Your task to perform on an android device: What is the capital of China? Image 0: 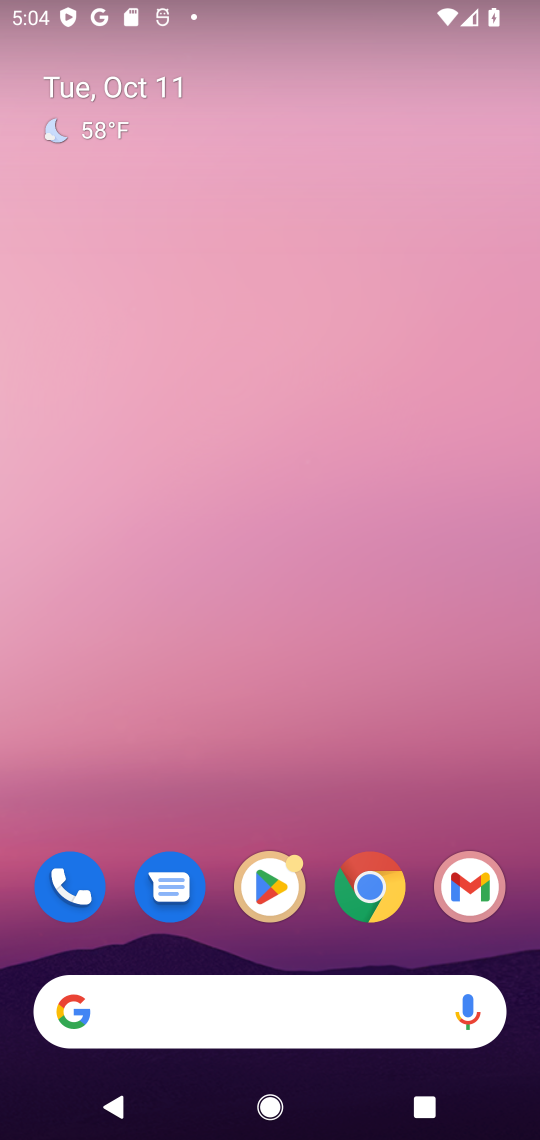
Step 0: click (287, 992)
Your task to perform on an android device: What is the capital of China? Image 1: 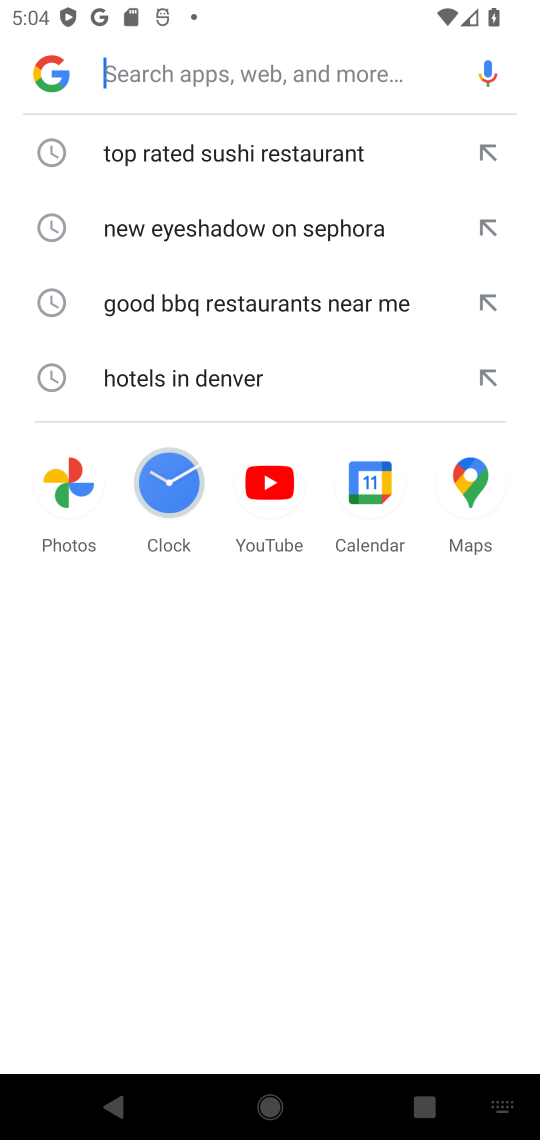
Step 1: type "capital of China"
Your task to perform on an android device: What is the capital of China? Image 2: 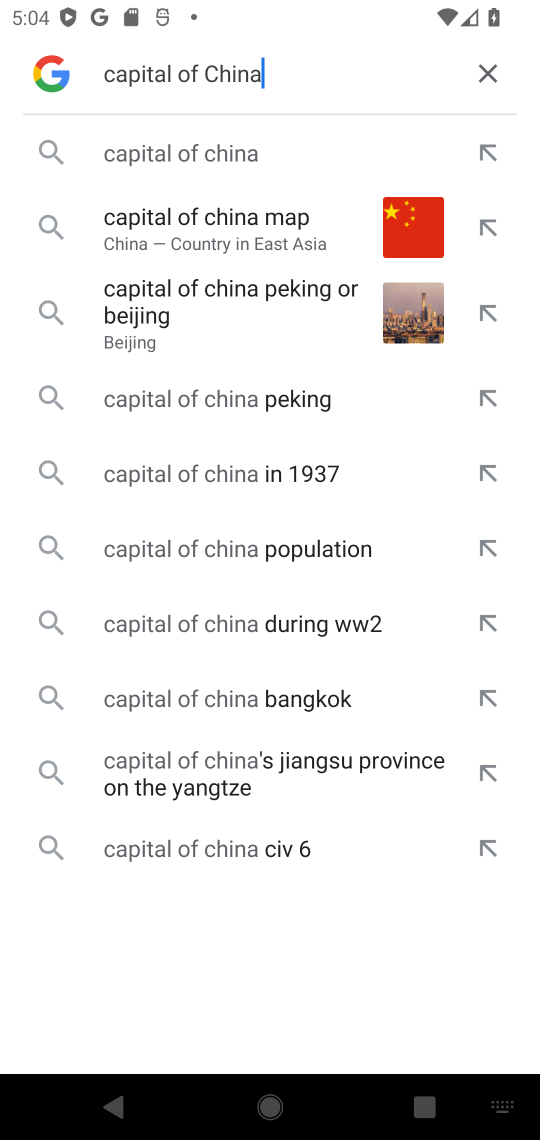
Step 2: click (214, 160)
Your task to perform on an android device: What is the capital of China? Image 3: 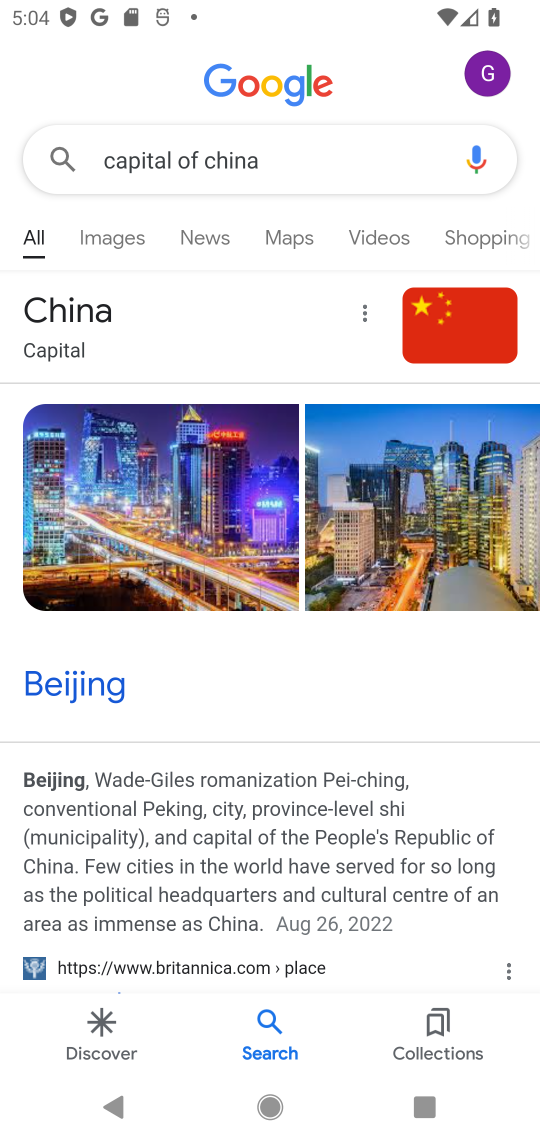
Step 3: click (261, 710)
Your task to perform on an android device: What is the capital of China? Image 4: 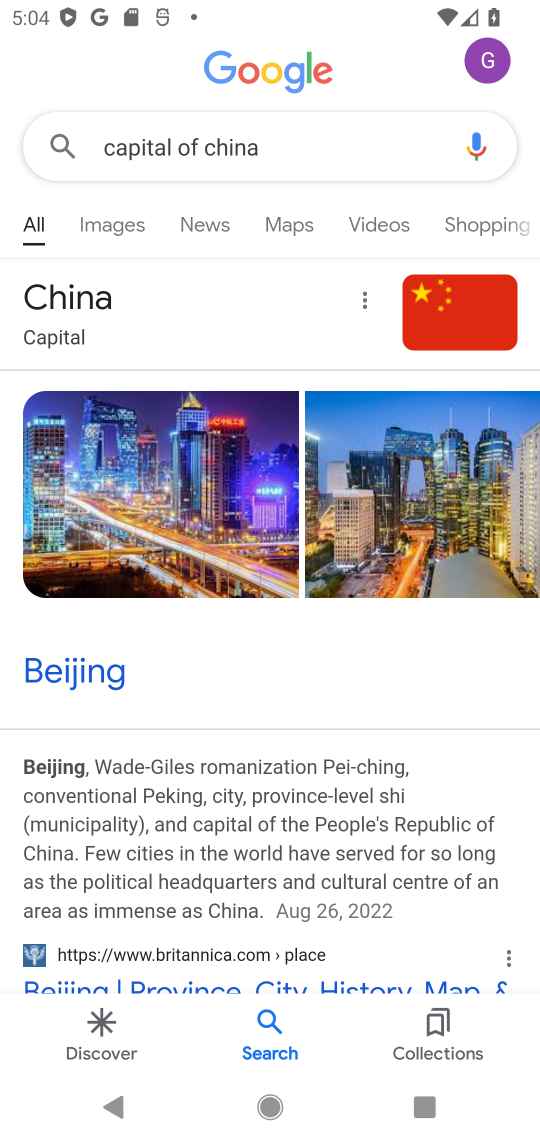
Step 4: drag from (176, 658) to (297, 293)
Your task to perform on an android device: What is the capital of China? Image 5: 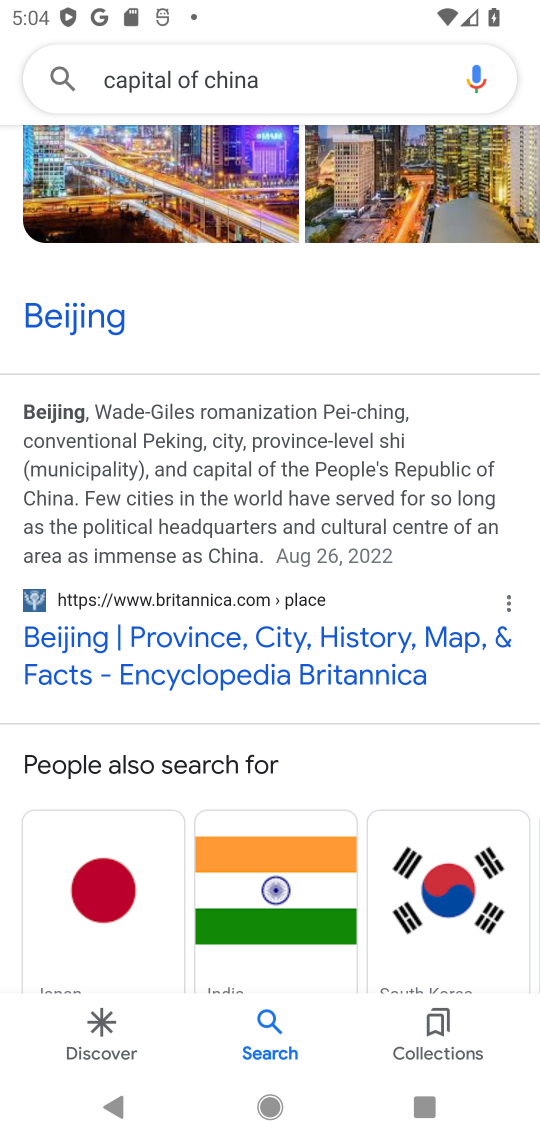
Step 5: drag from (414, 578) to (444, 338)
Your task to perform on an android device: What is the capital of China? Image 6: 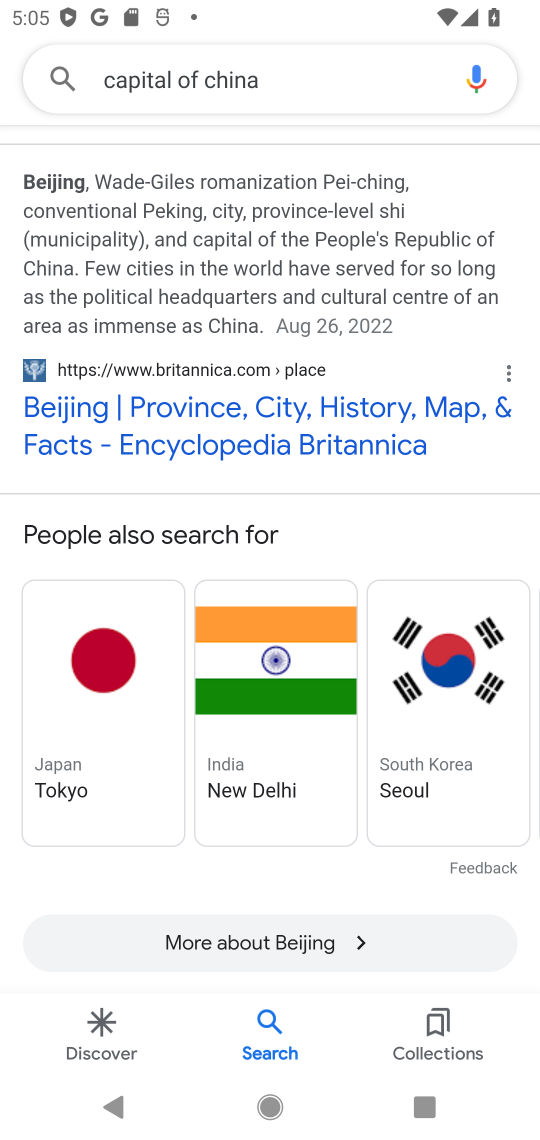
Step 6: drag from (365, 855) to (363, 709)
Your task to perform on an android device: What is the capital of China? Image 7: 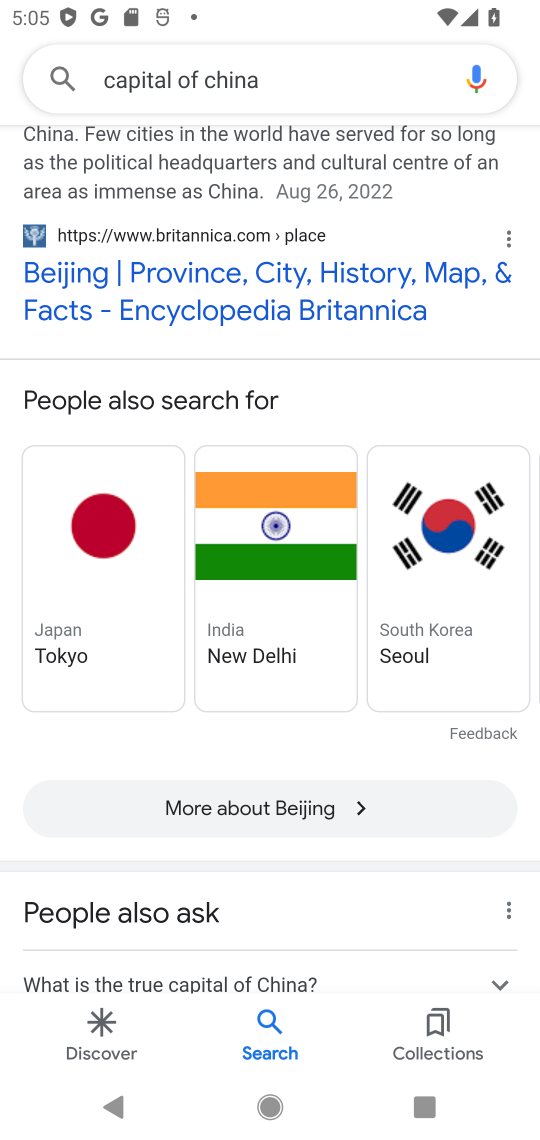
Step 7: drag from (412, 921) to (382, 446)
Your task to perform on an android device: What is the capital of China? Image 8: 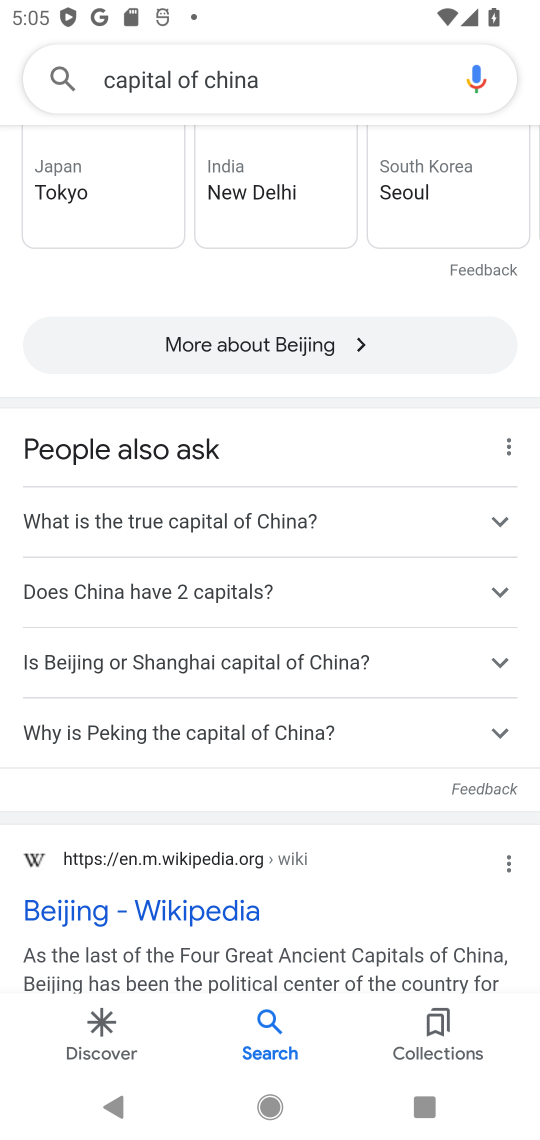
Step 8: click (353, 871)
Your task to perform on an android device: What is the capital of China? Image 9: 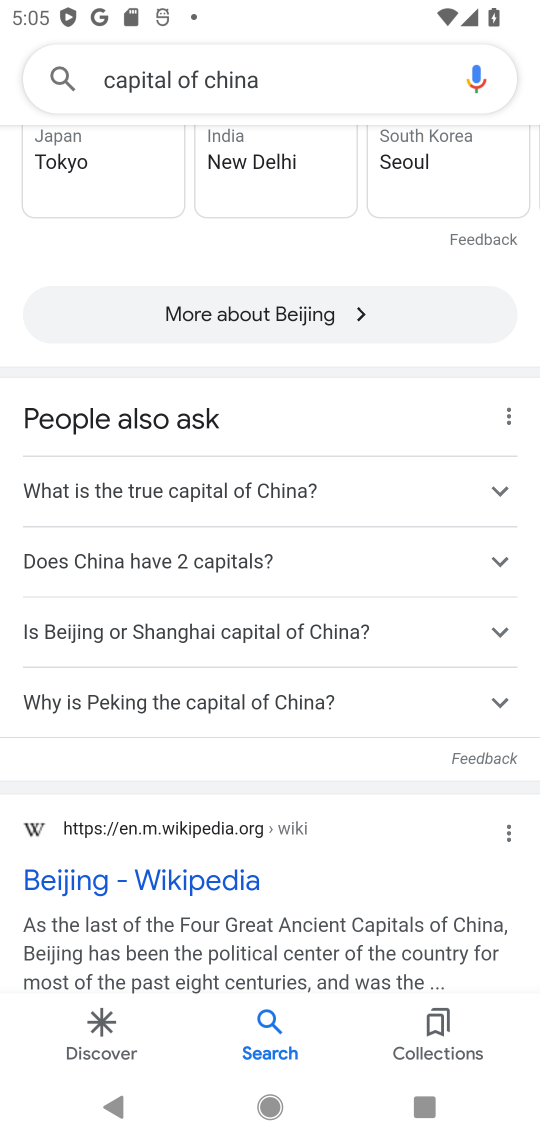
Step 9: click (502, 488)
Your task to perform on an android device: What is the capital of China? Image 10: 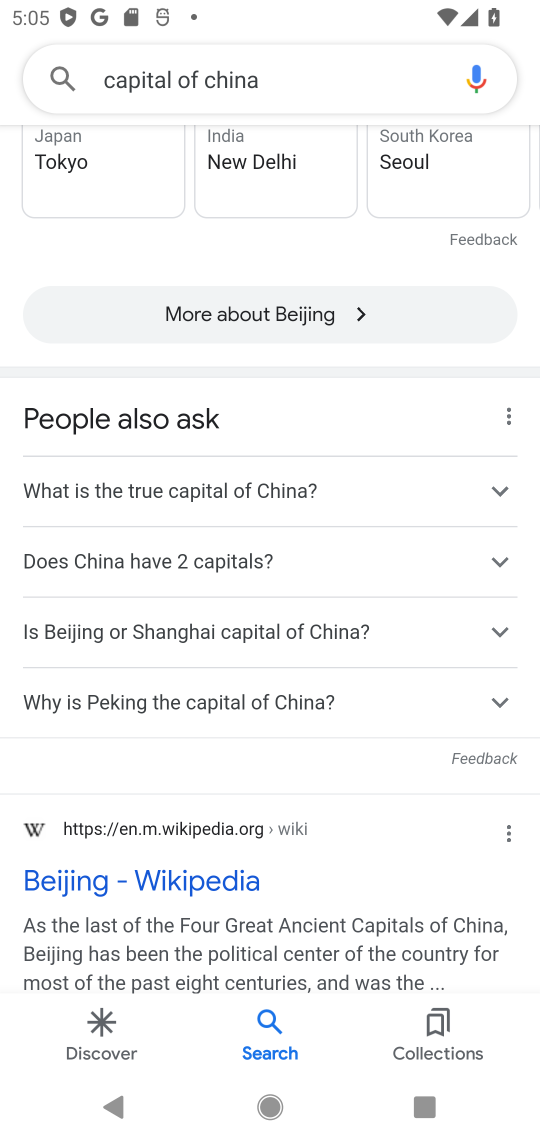
Step 10: click (502, 488)
Your task to perform on an android device: What is the capital of China? Image 11: 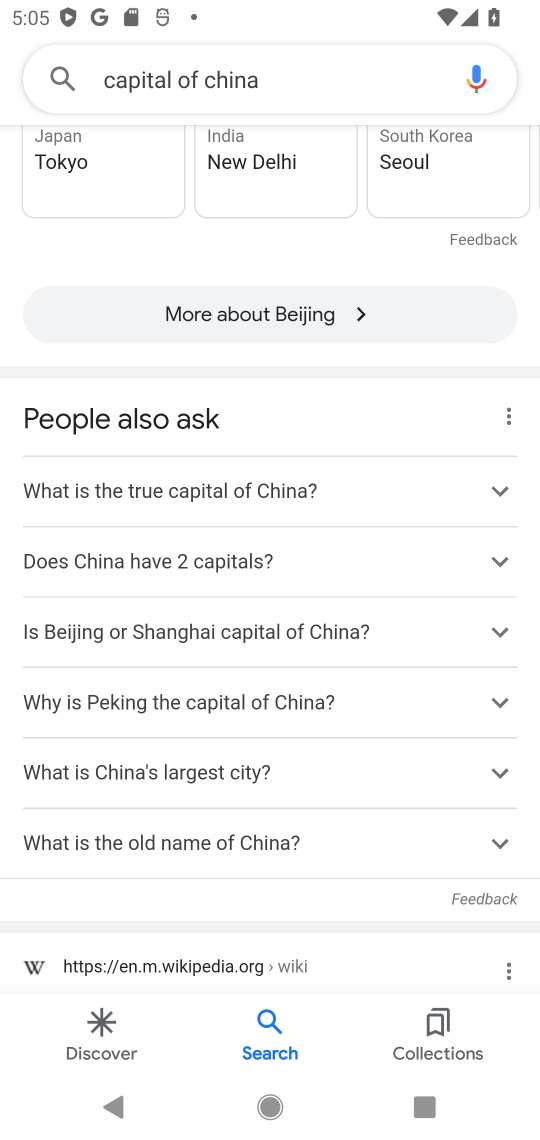
Step 11: click (502, 488)
Your task to perform on an android device: What is the capital of China? Image 12: 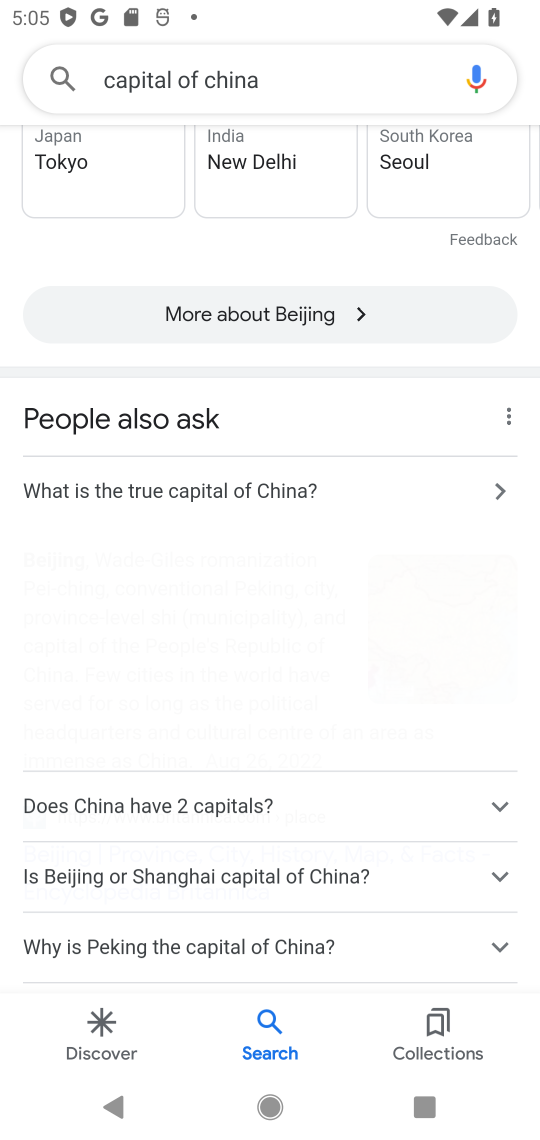
Step 12: click (501, 490)
Your task to perform on an android device: What is the capital of China? Image 13: 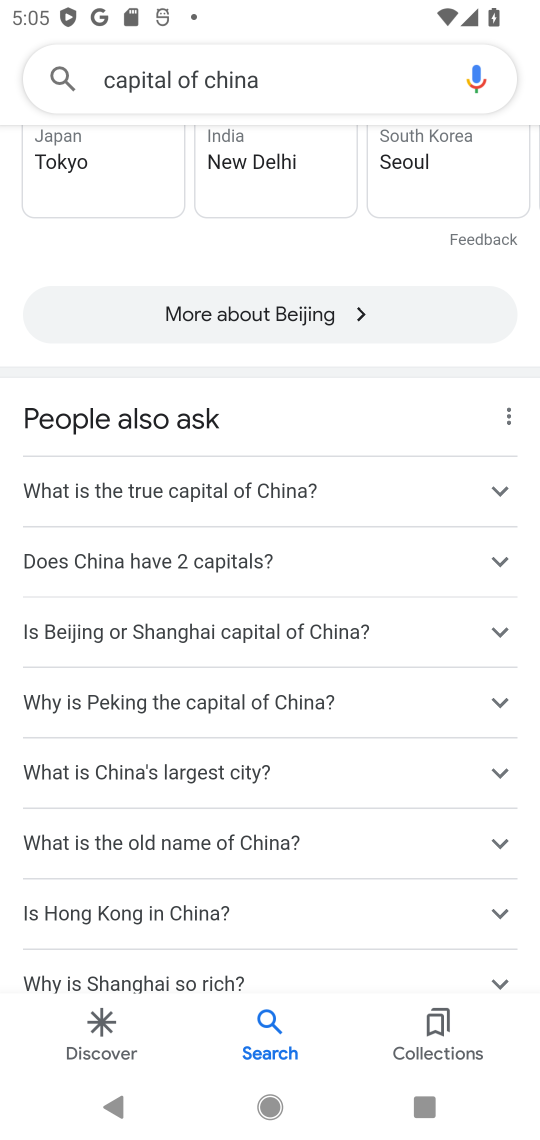
Step 13: click (497, 489)
Your task to perform on an android device: What is the capital of China? Image 14: 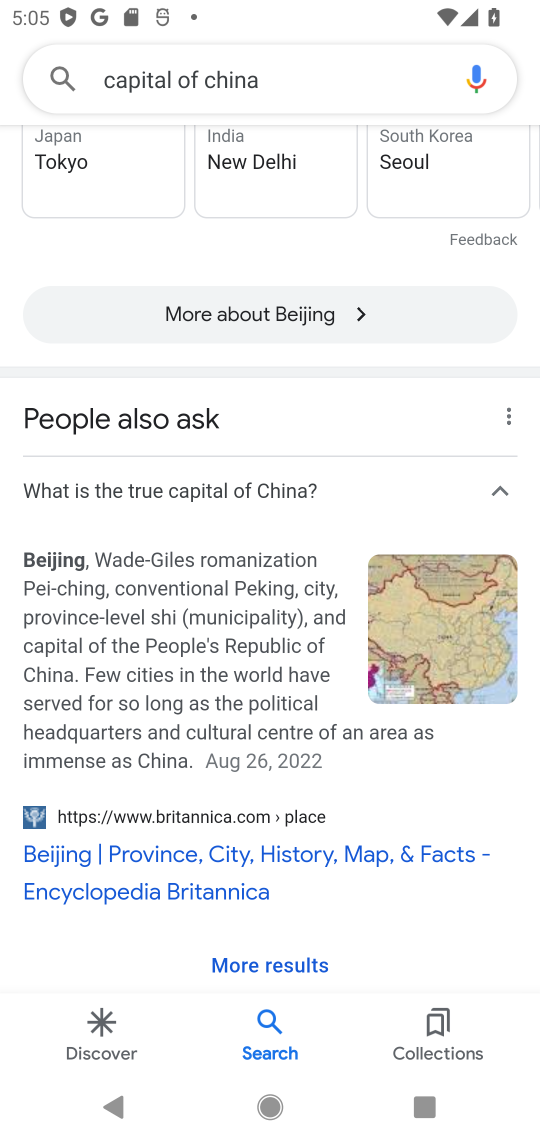
Step 14: click (497, 489)
Your task to perform on an android device: What is the capital of China? Image 15: 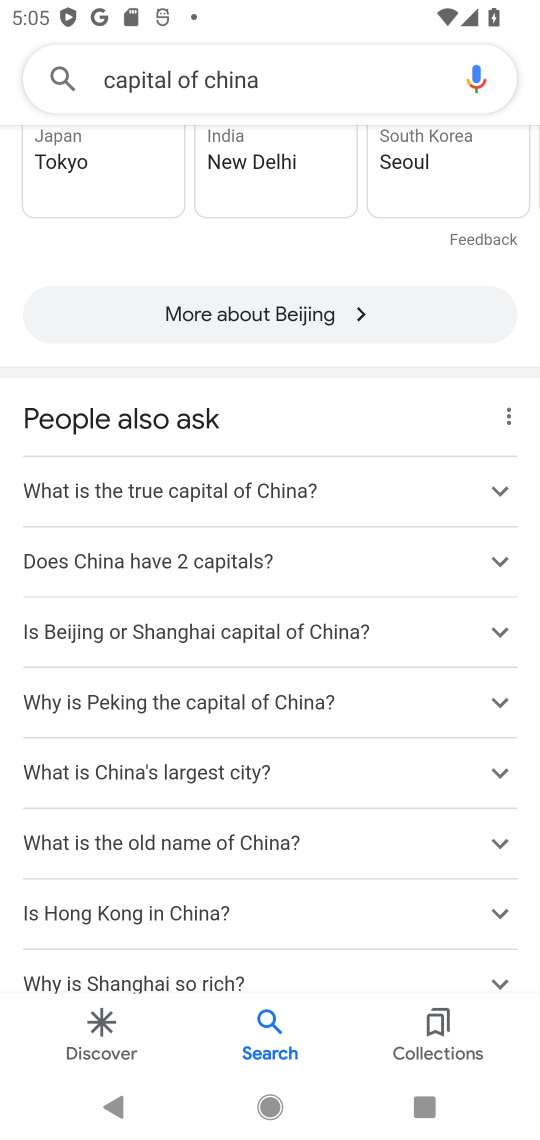
Step 15: click (497, 489)
Your task to perform on an android device: What is the capital of China? Image 16: 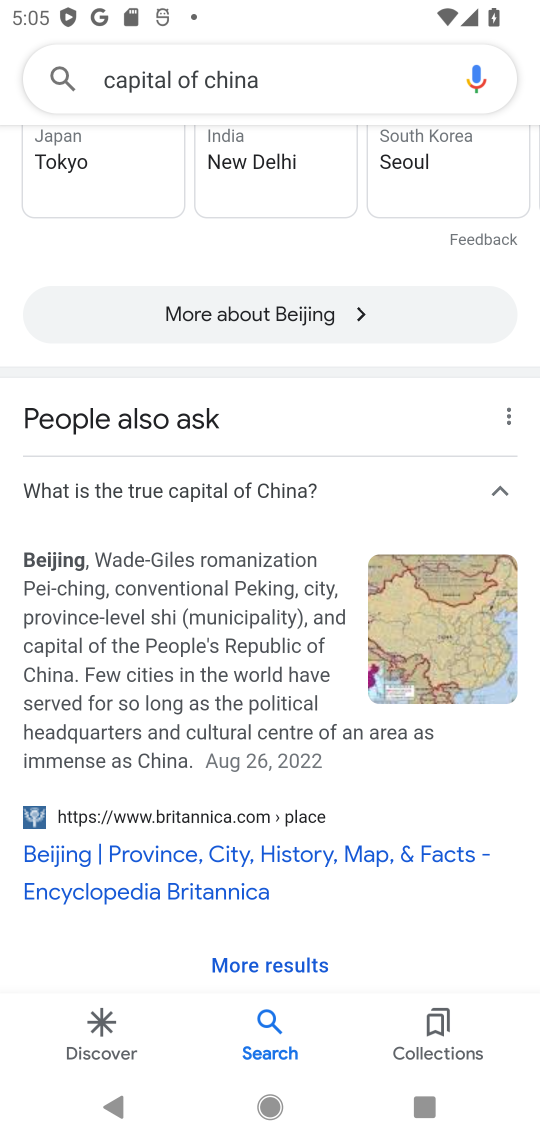
Step 16: click (497, 489)
Your task to perform on an android device: What is the capital of China? Image 17: 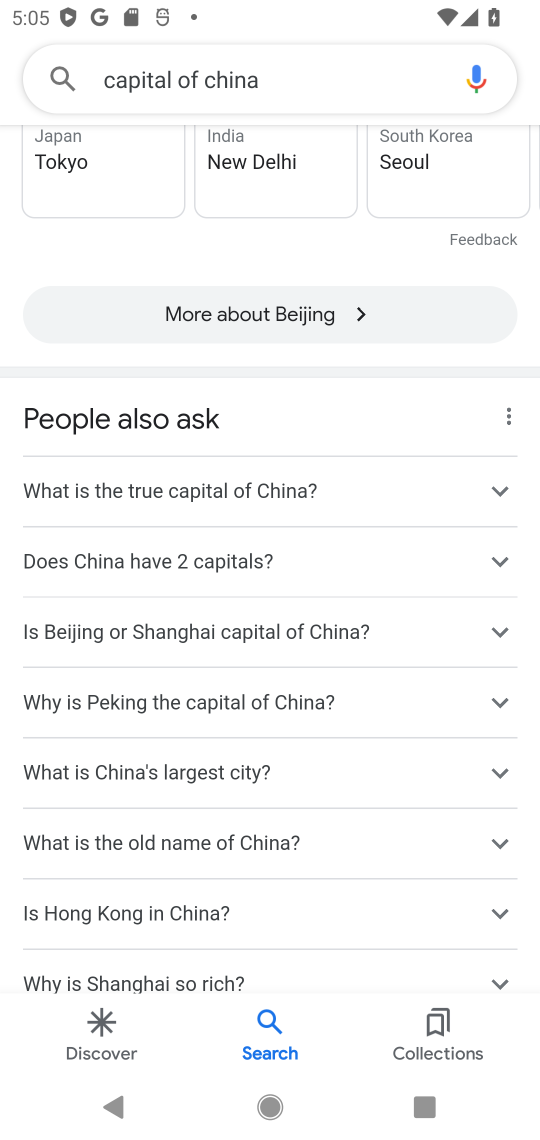
Step 17: click (497, 489)
Your task to perform on an android device: What is the capital of China? Image 18: 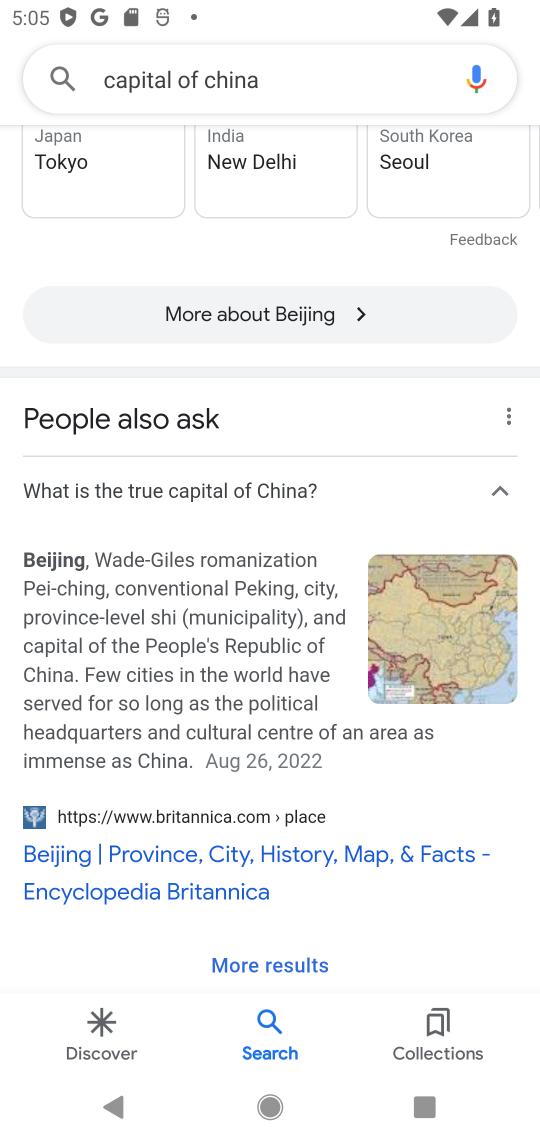
Step 18: click (497, 489)
Your task to perform on an android device: What is the capital of China? Image 19: 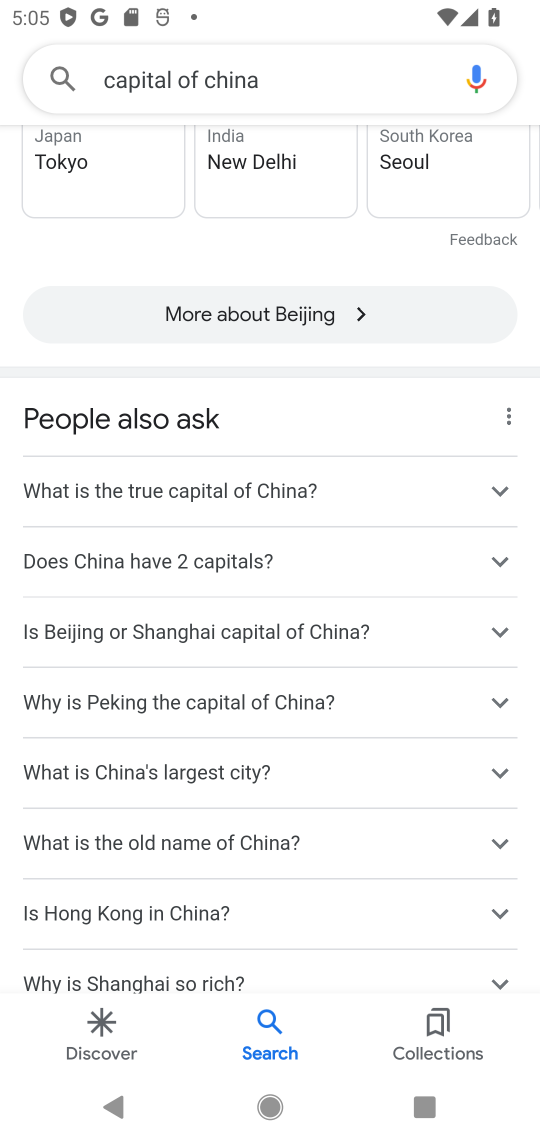
Step 19: click (497, 489)
Your task to perform on an android device: What is the capital of China? Image 20: 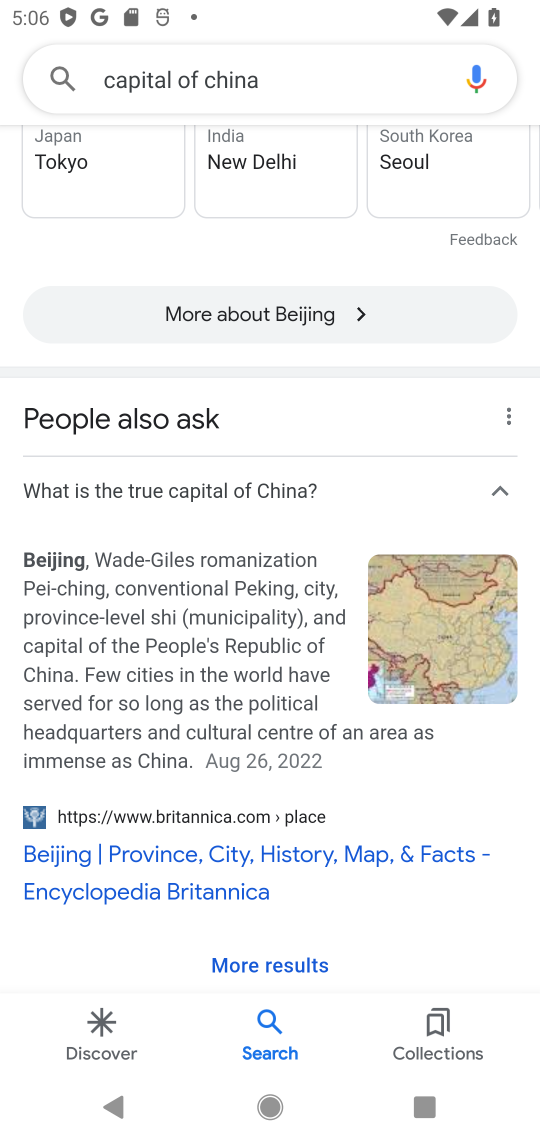
Step 20: click (497, 489)
Your task to perform on an android device: What is the capital of China? Image 21: 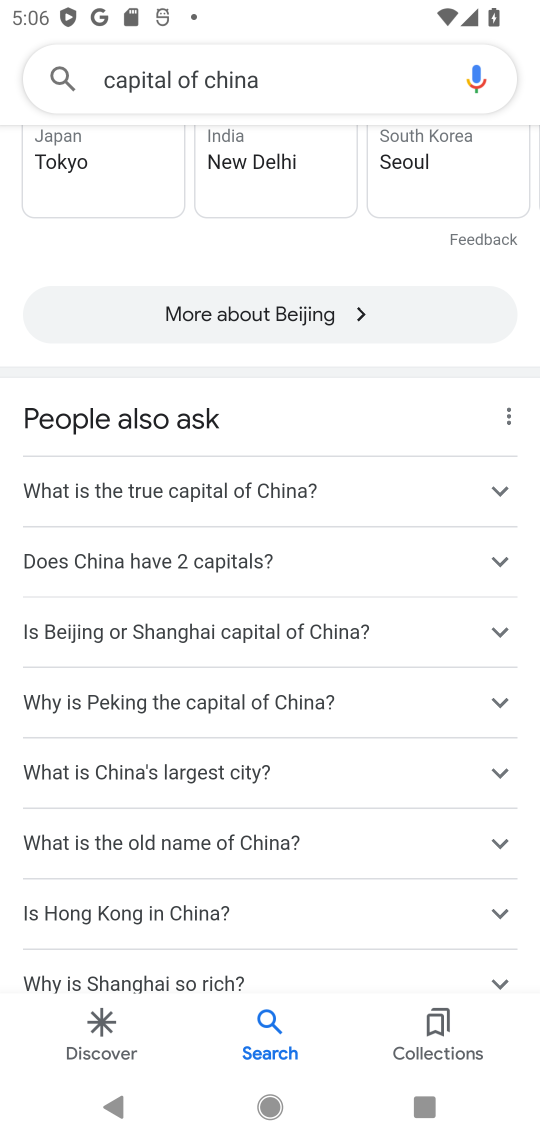
Step 21: click (497, 489)
Your task to perform on an android device: What is the capital of China? Image 22: 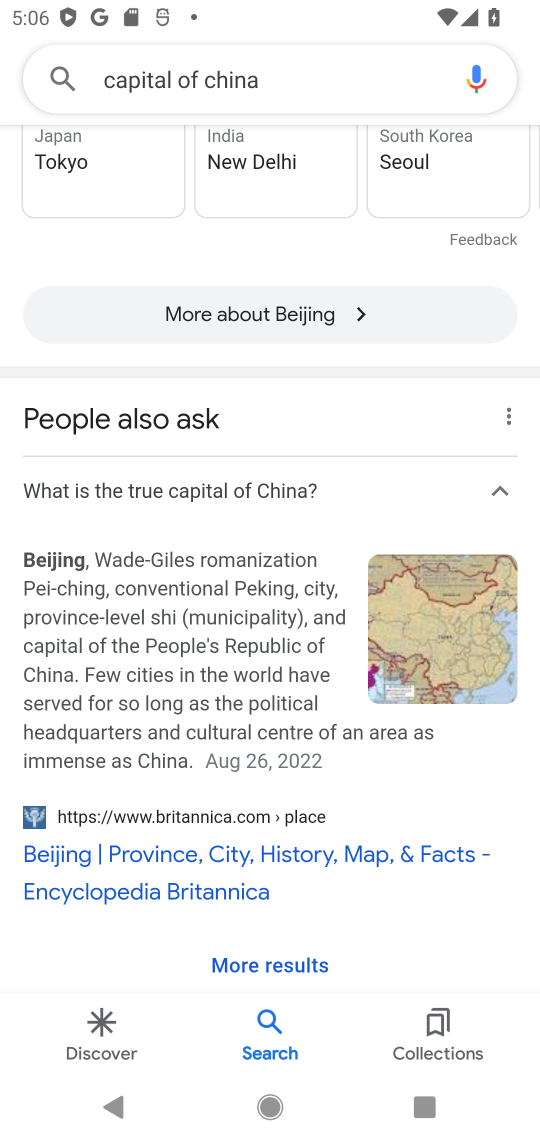
Step 22: click (497, 489)
Your task to perform on an android device: What is the capital of China? Image 23: 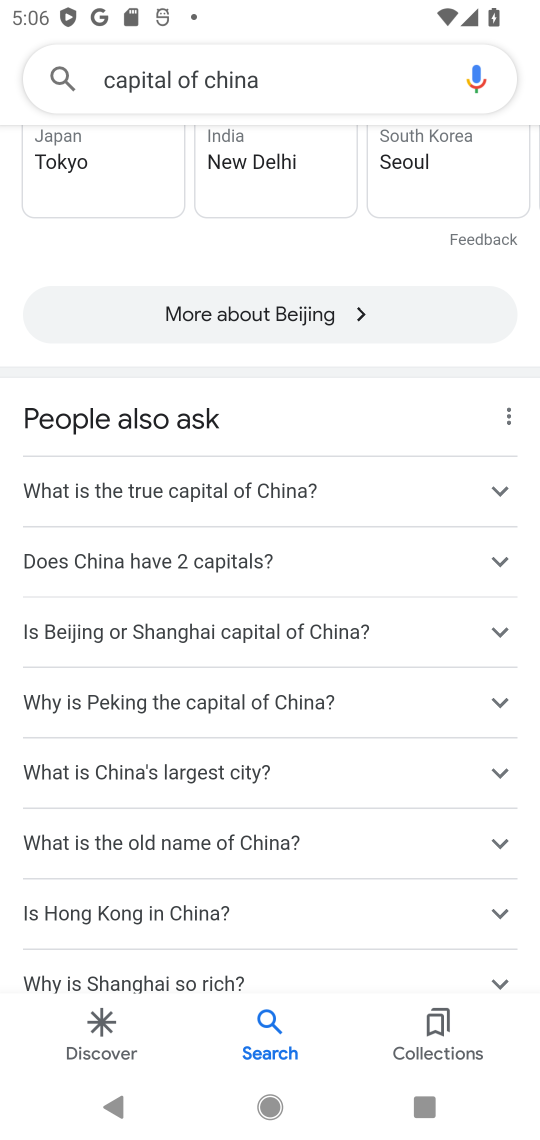
Step 23: click (497, 489)
Your task to perform on an android device: What is the capital of China? Image 24: 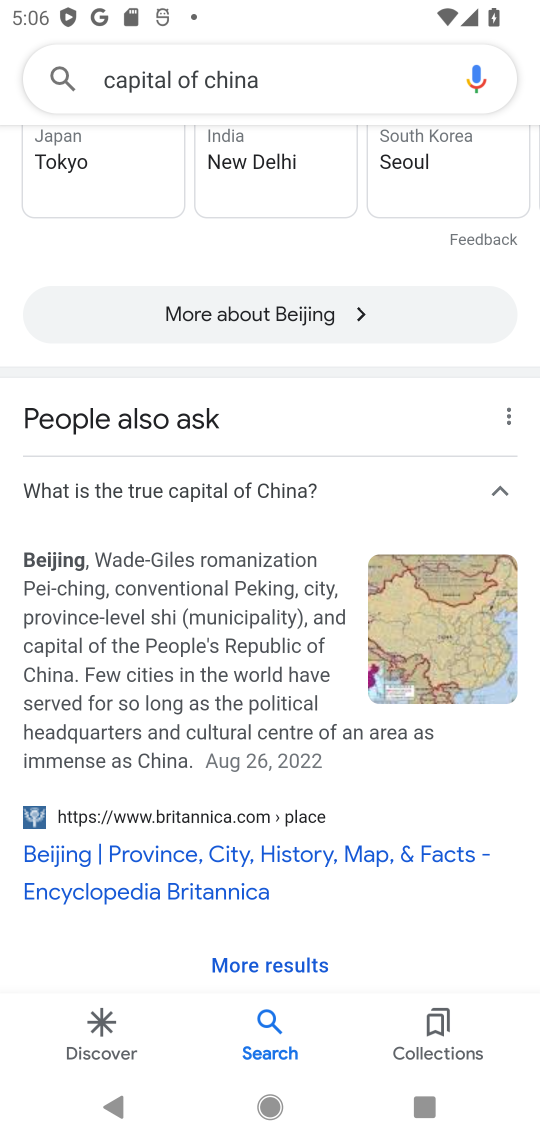
Step 24: click (497, 489)
Your task to perform on an android device: What is the capital of China? Image 25: 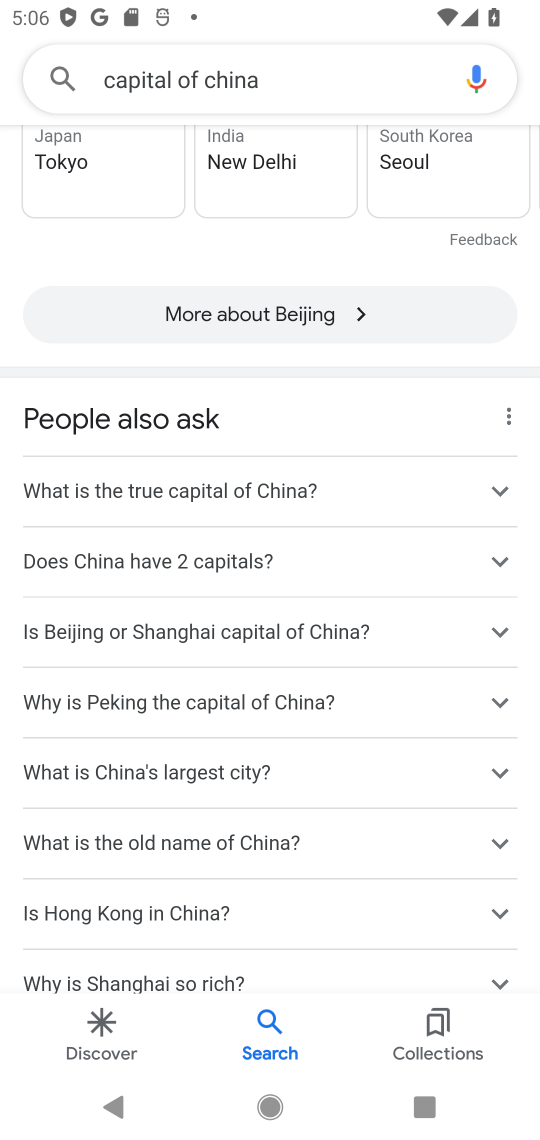
Step 25: click (497, 489)
Your task to perform on an android device: What is the capital of China? Image 26: 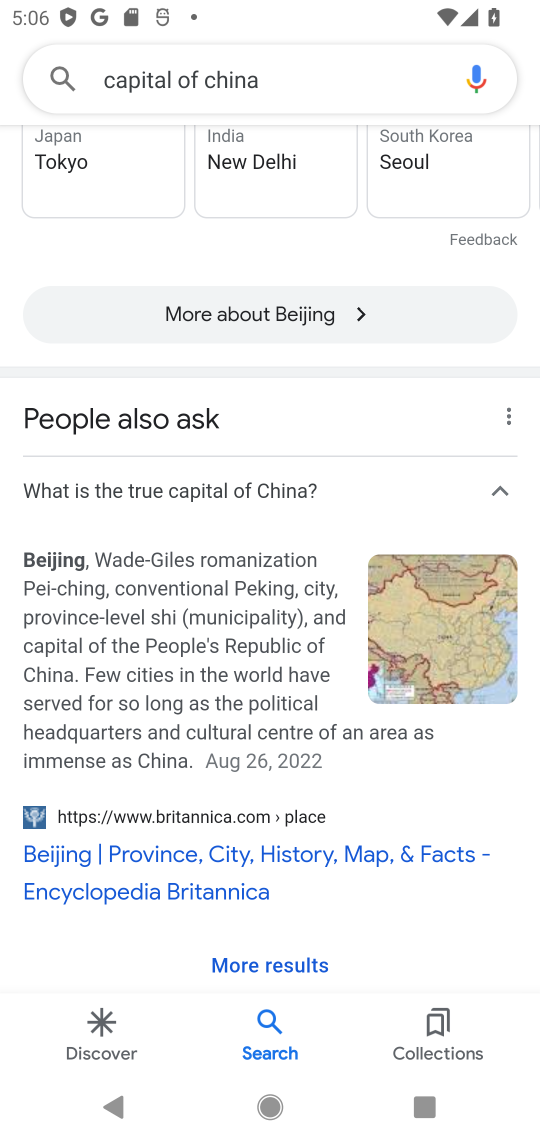
Step 26: click (497, 489)
Your task to perform on an android device: What is the capital of China? Image 27: 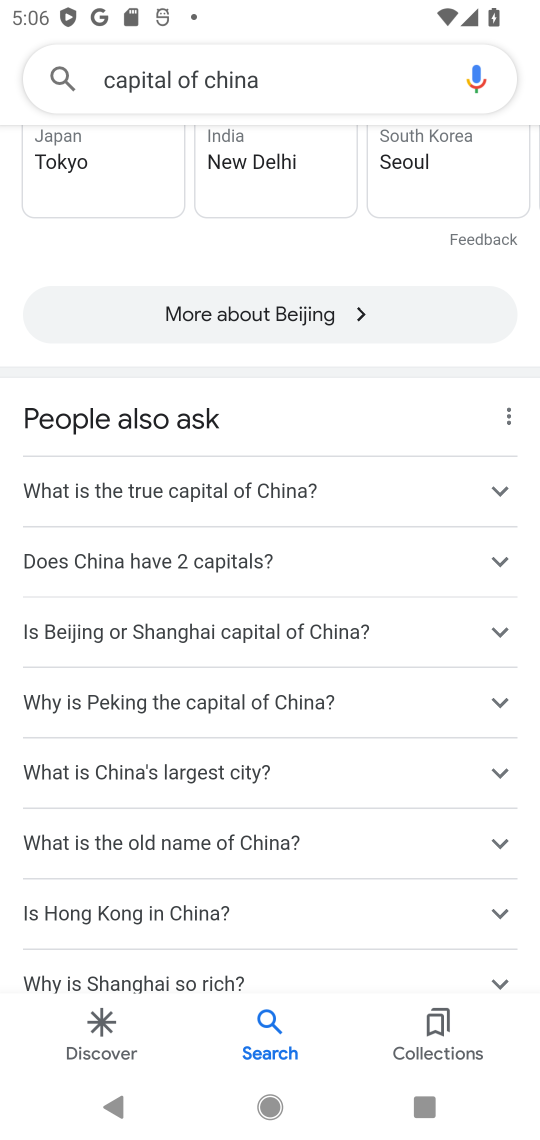
Step 27: click (497, 489)
Your task to perform on an android device: What is the capital of China? Image 28: 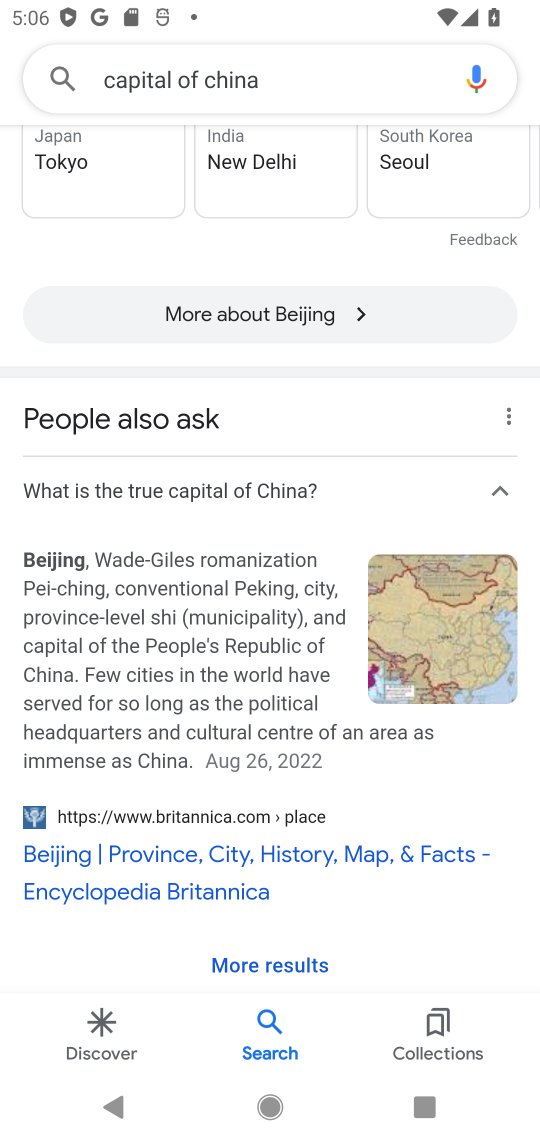
Step 28: click (497, 489)
Your task to perform on an android device: What is the capital of China? Image 29: 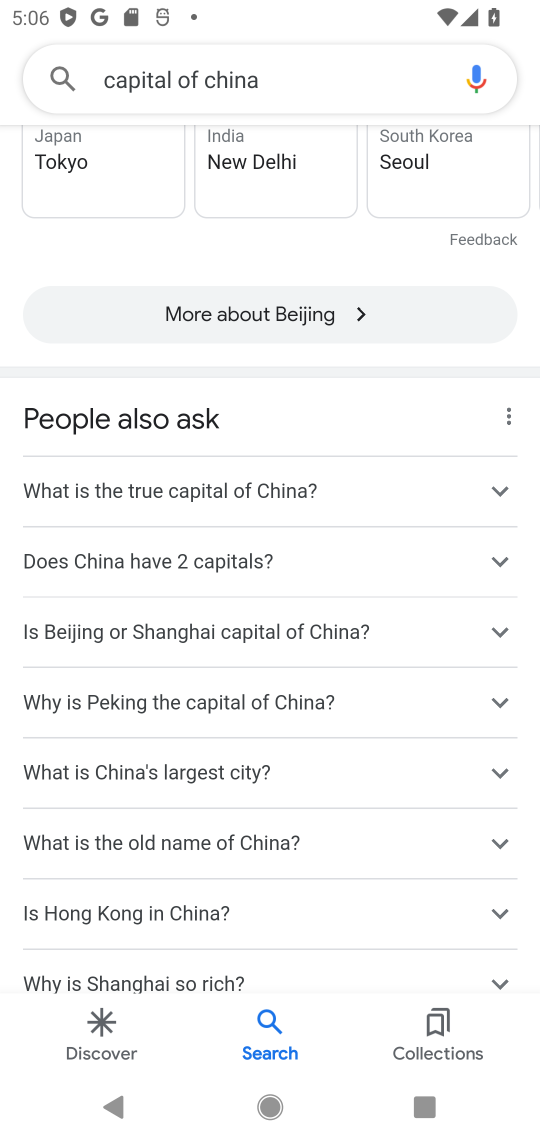
Step 29: click (497, 489)
Your task to perform on an android device: What is the capital of China? Image 30: 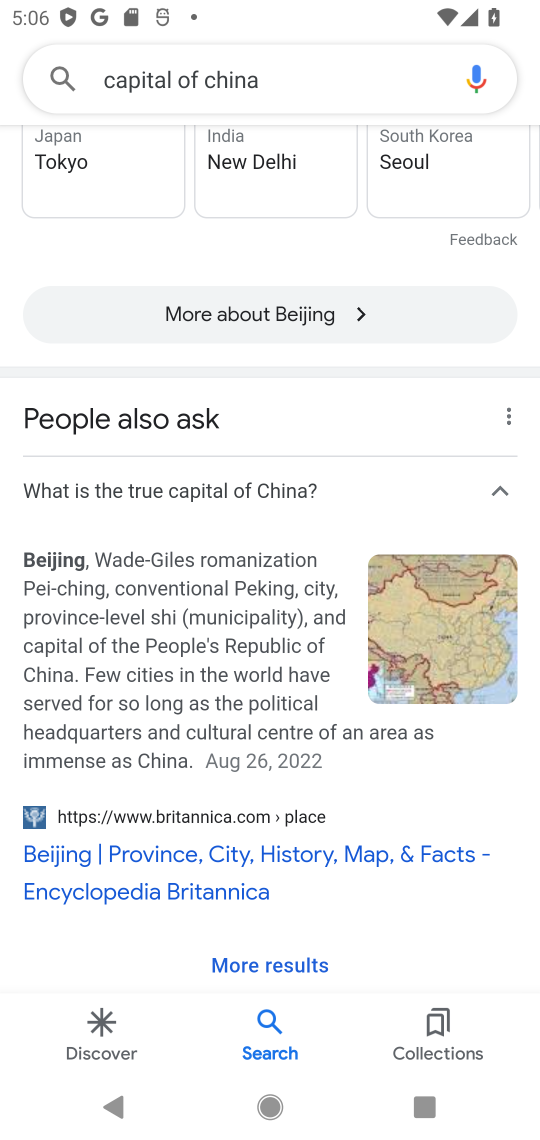
Step 30: click (497, 489)
Your task to perform on an android device: What is the capital of China? Image 31: 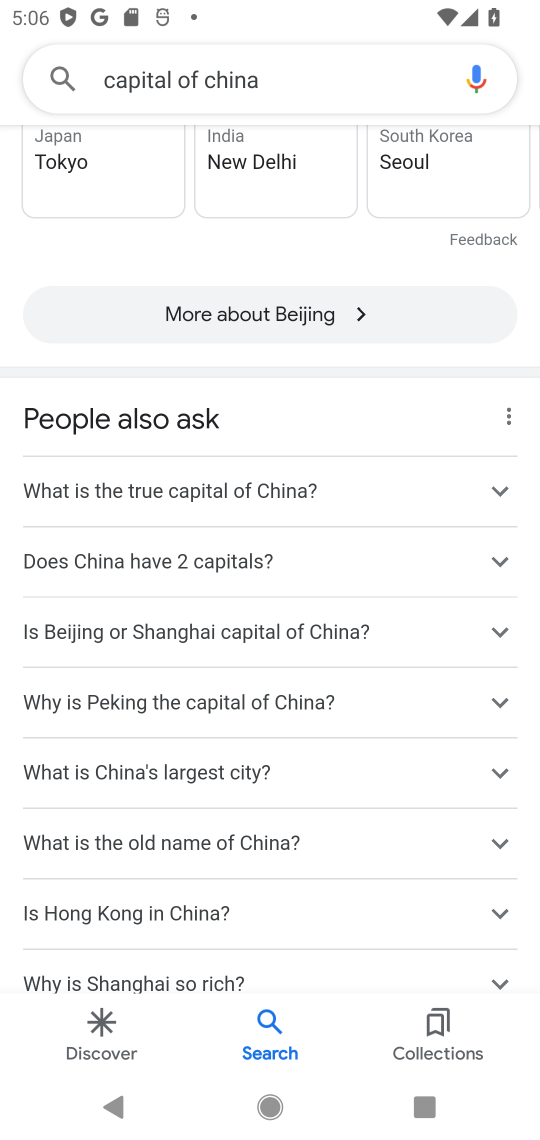
Step 31: click (497, 489)
Your task to perform on an android device: What is the capital of China? Image 32: 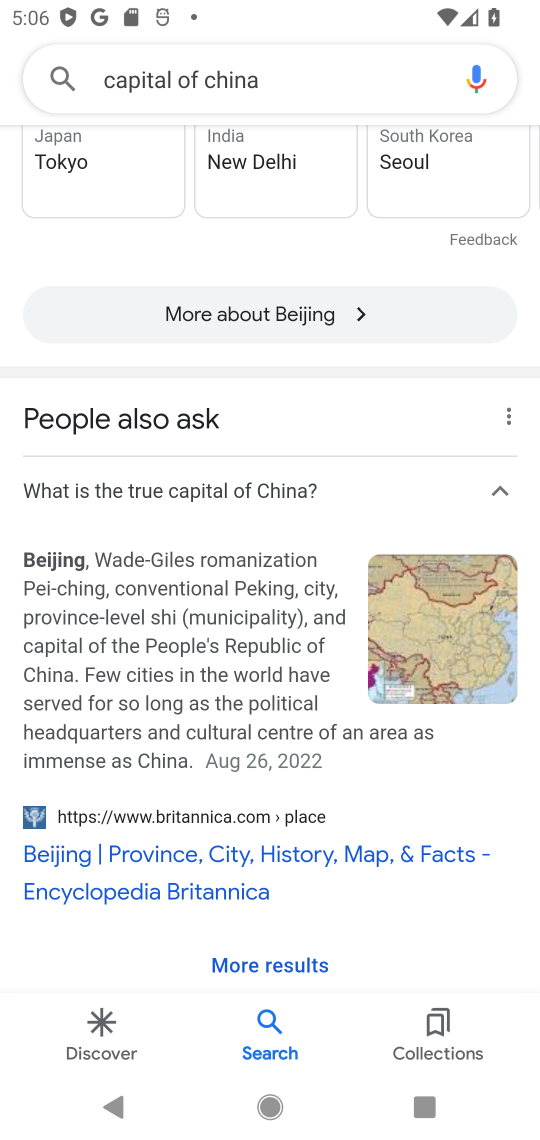
Step 32: click (497, 489)
Your task to perform on an android device: What is the capital of China? Image 33: 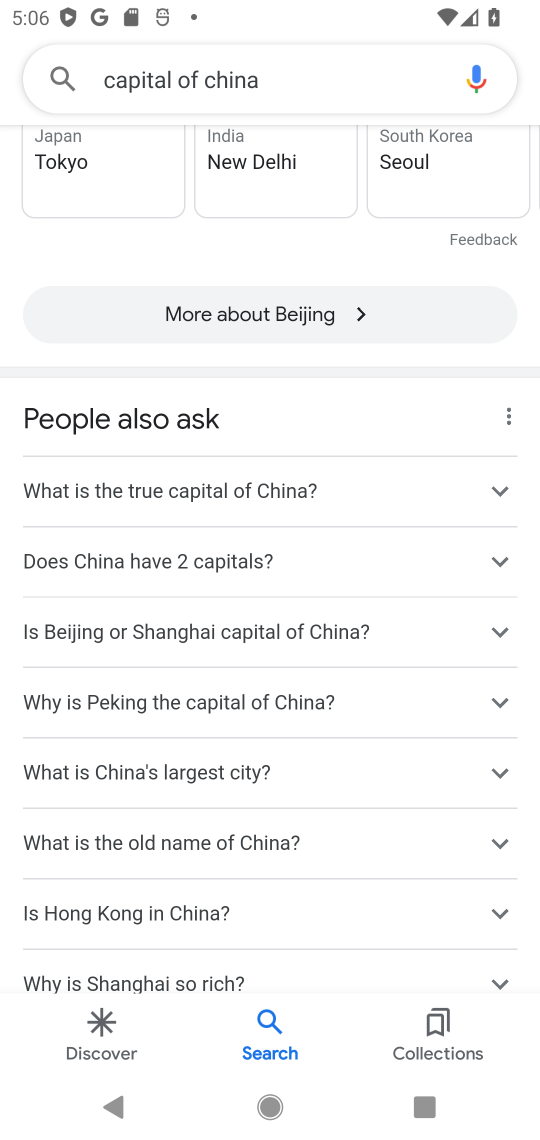
Step 33: click (497, 489)
Your task to perform on an android device: What is the capital of China? Image 34: 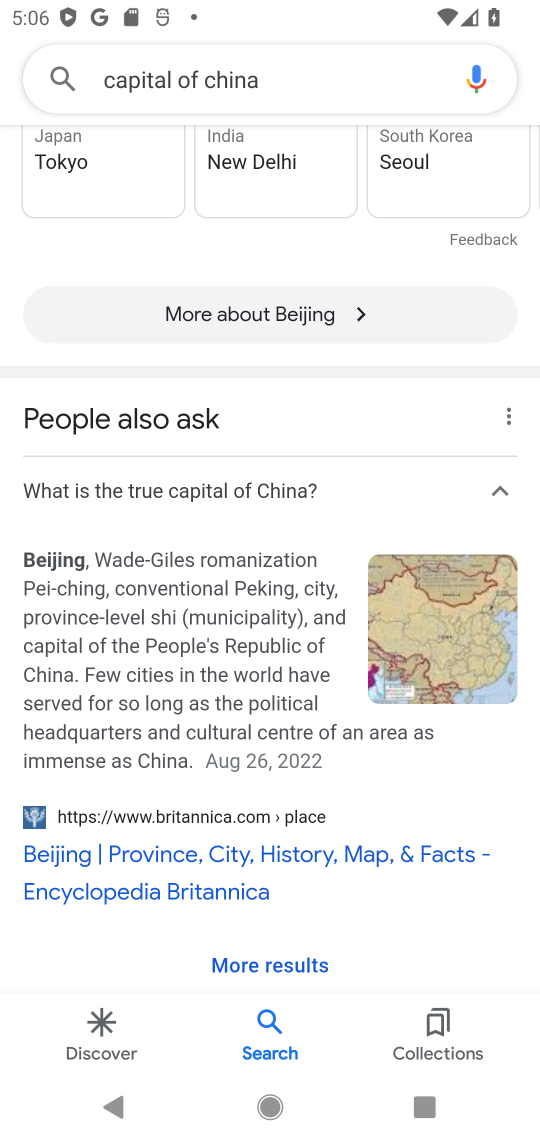
Step 34: click (497, 489)
Your task to perform on an android device: What is the capital of China? Image 35: 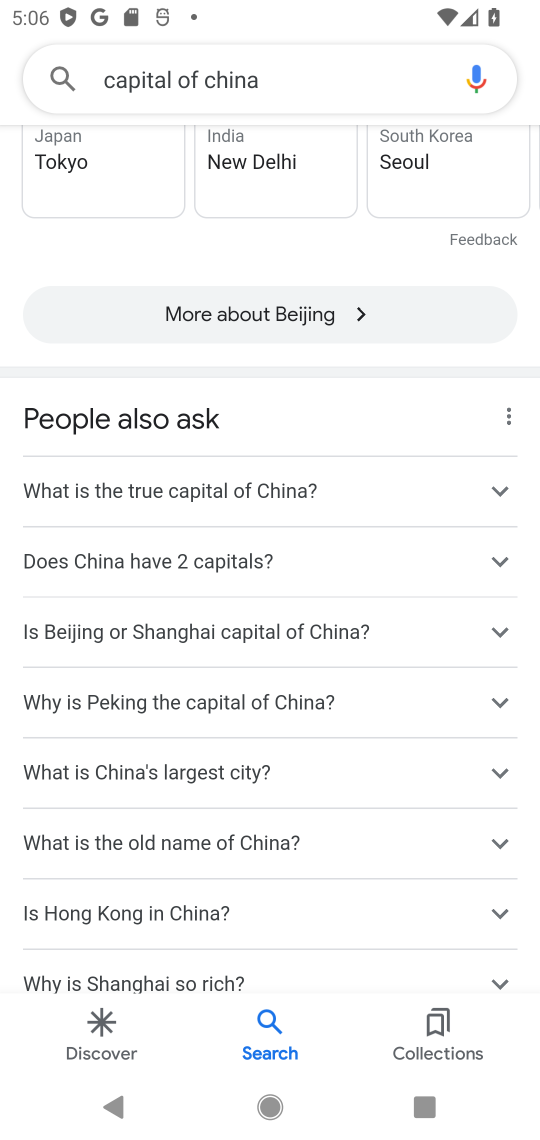
Step 35: click (497, 489)
Your task to perform on an android device: What is the capital of China? Image 36: 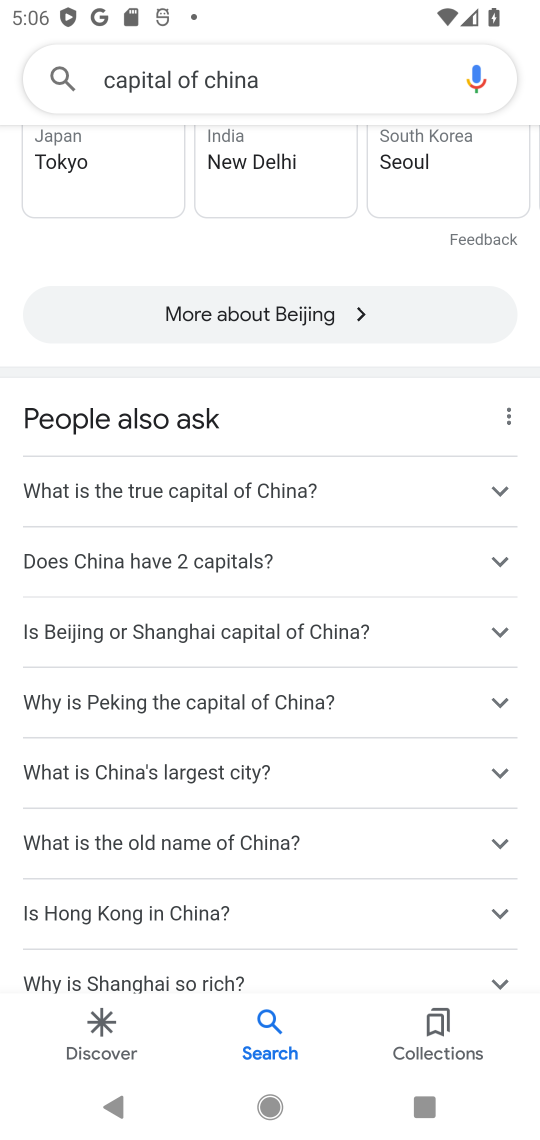
Step 36: click (497, 489)
Your task to perform on an android device: What is the capital of China? Image 37: 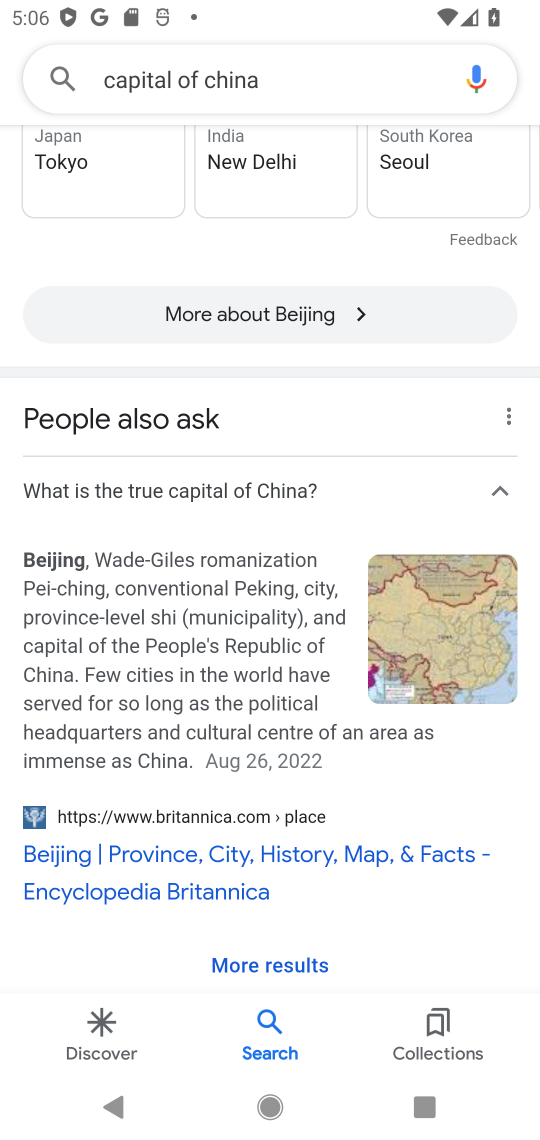
Step 37: click (497, 489)
Your task to perform on an android device: What is the capital of China? Image 38: 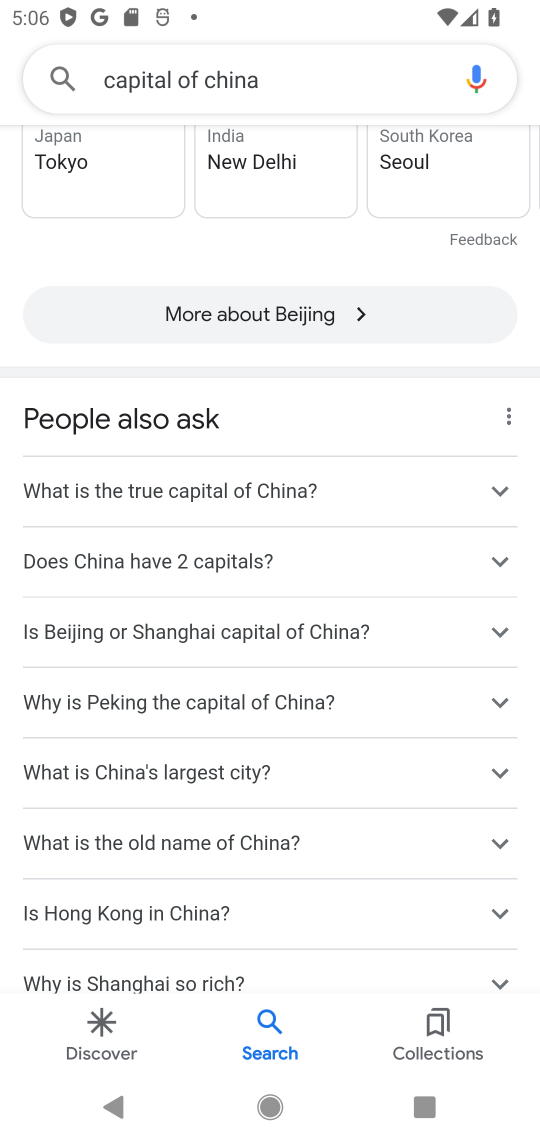
Step 38: click (497, 489)
Your task to perform on an android device: What is the capital of China? Image 39: 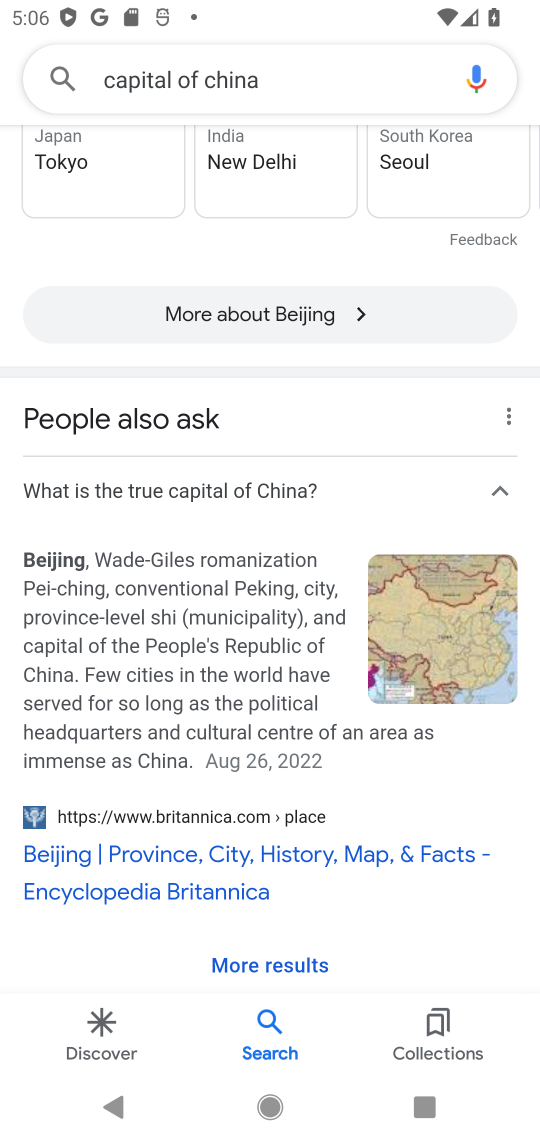
Step 39: click (497, 489)
Your task to perform on an android device: What is the capital of China? Image 40: 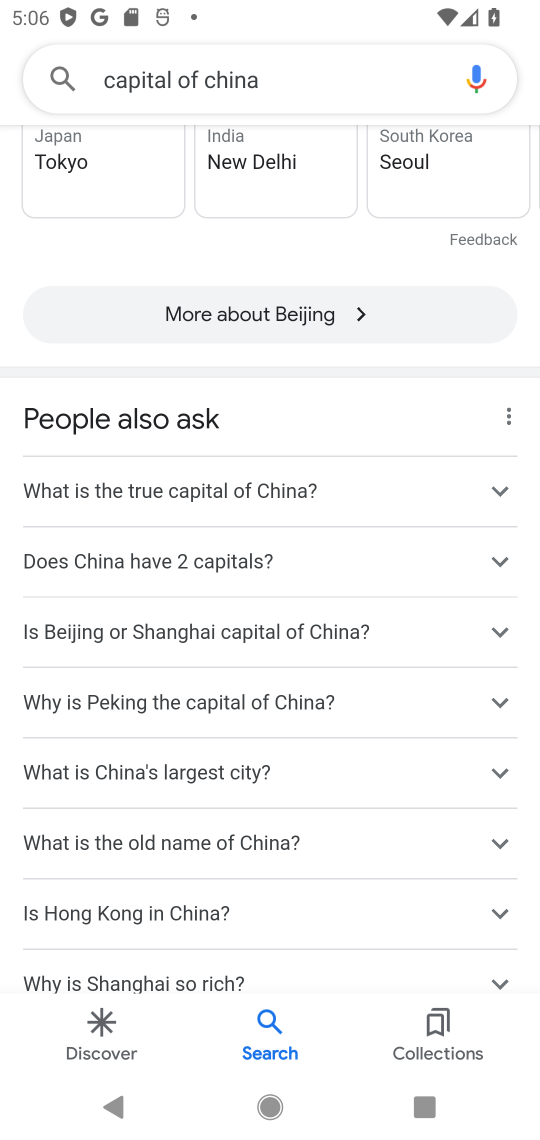
Step 40: click (497, 489)
Your task to perform on an android device: What is the capital of China? Image 41: 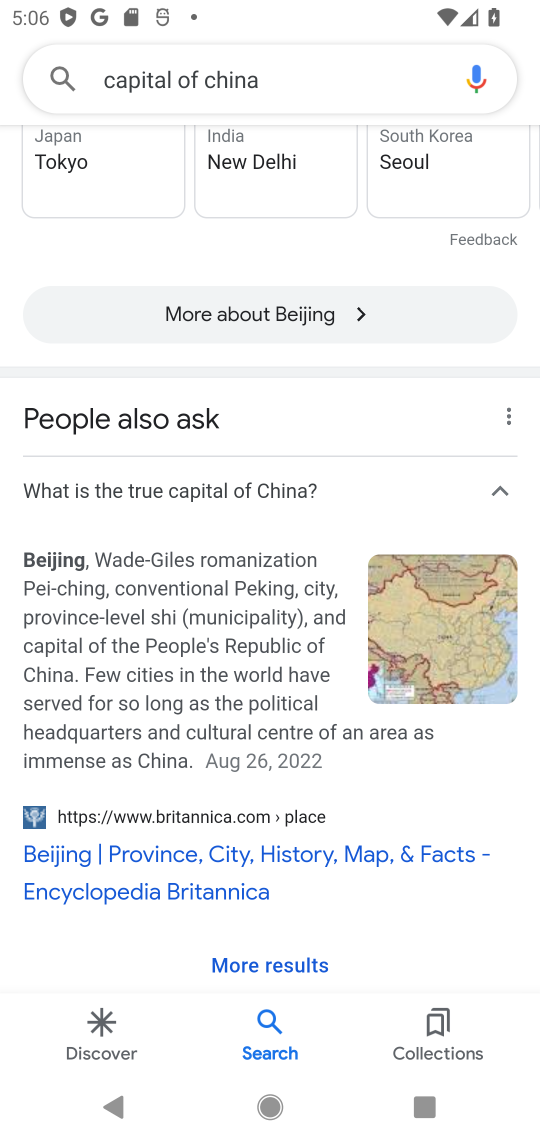
Step 41: click (497, 489)
Your task to perform on an android device: What is the capital of China? Image 42: 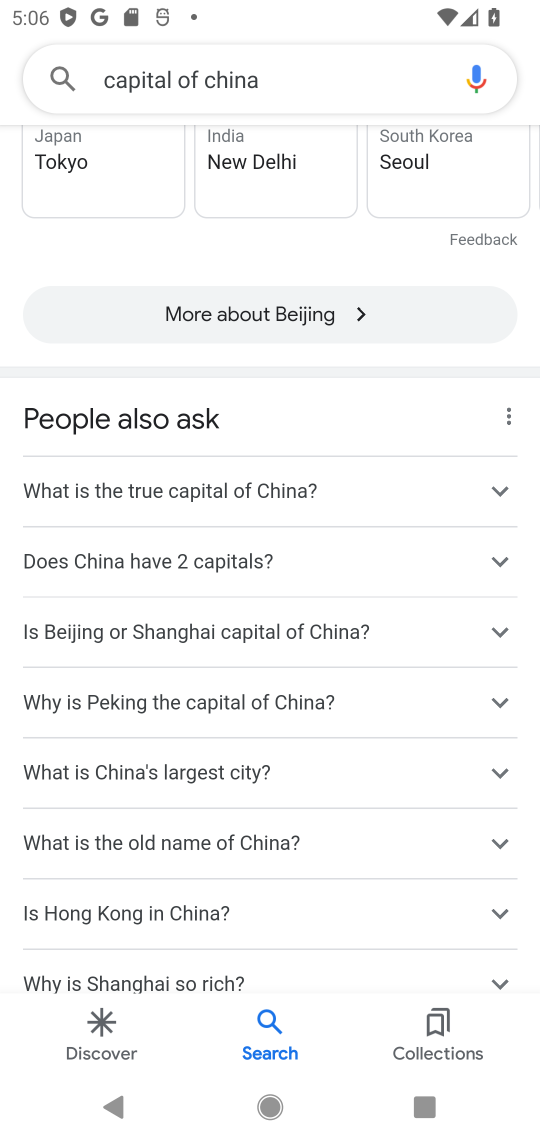
Step 42: click (497, 489)
Your task to perform on an android device: What is the capital of China? Image 43: 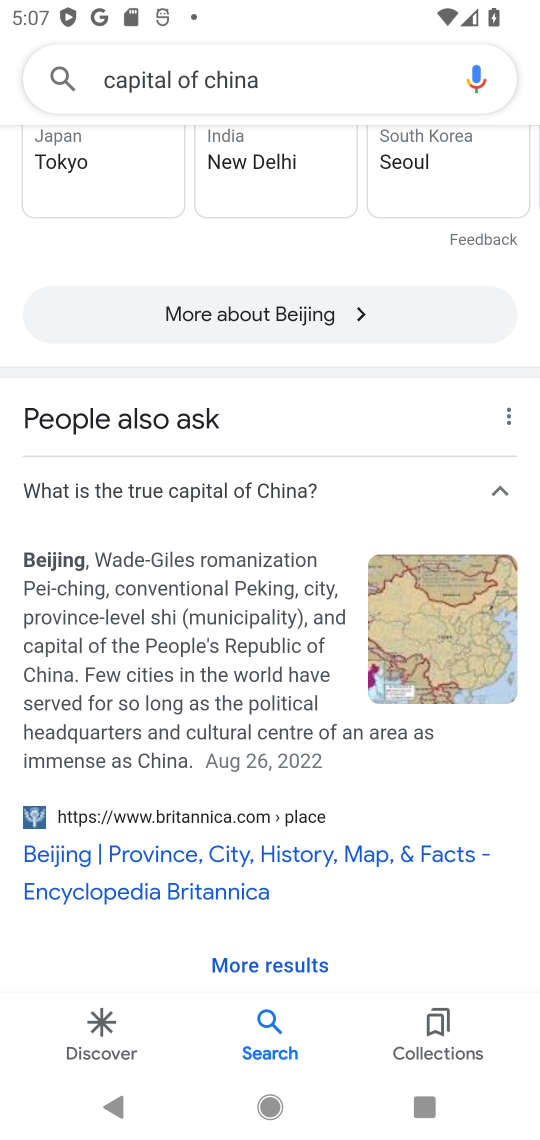
Step 43: click (499, 487)
Your task to perform on an android device: What is the capital of China? Image 44: 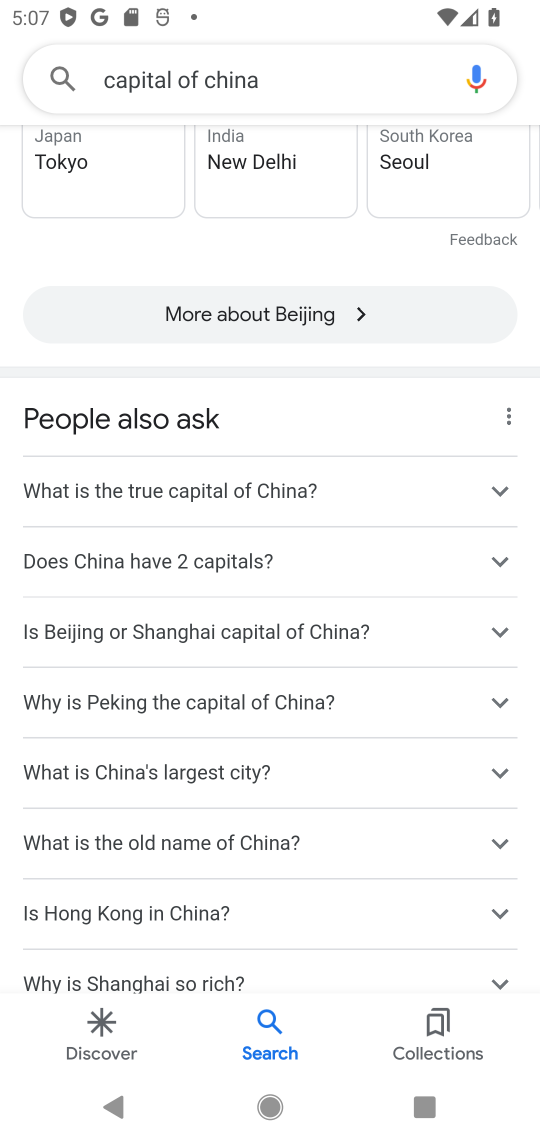
Step 44: click (501, 562)
Your task to perform on an android device: What is the capital of China? Image 45: 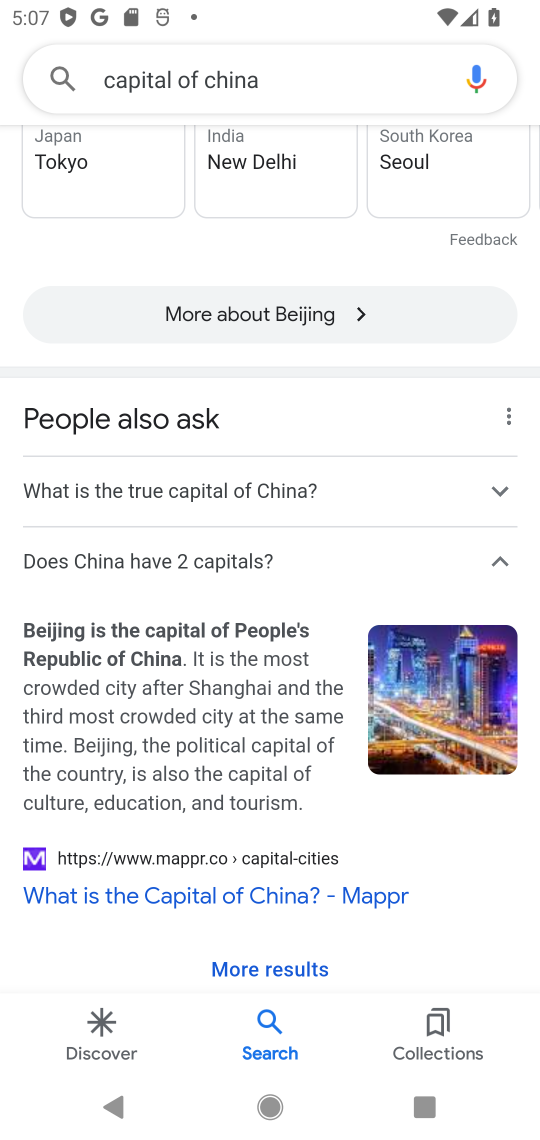
Step 45: click (501, 562)
Your task to perform on an android device: What is the capital of China? Image 46: 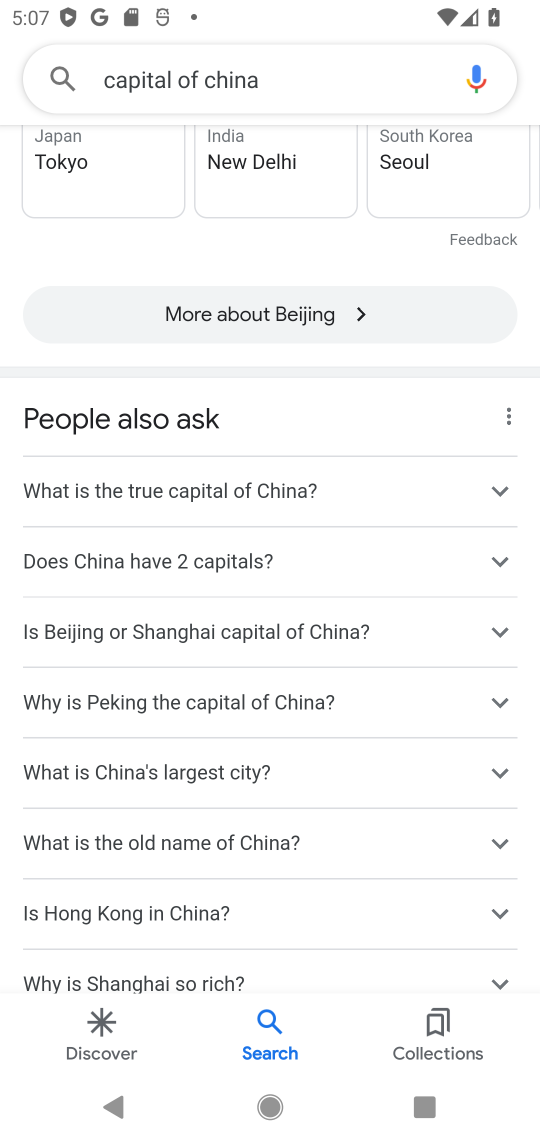
Step 46: click (501, 562)
Your task to perform on an android device: What is the capital of China? Image 47: 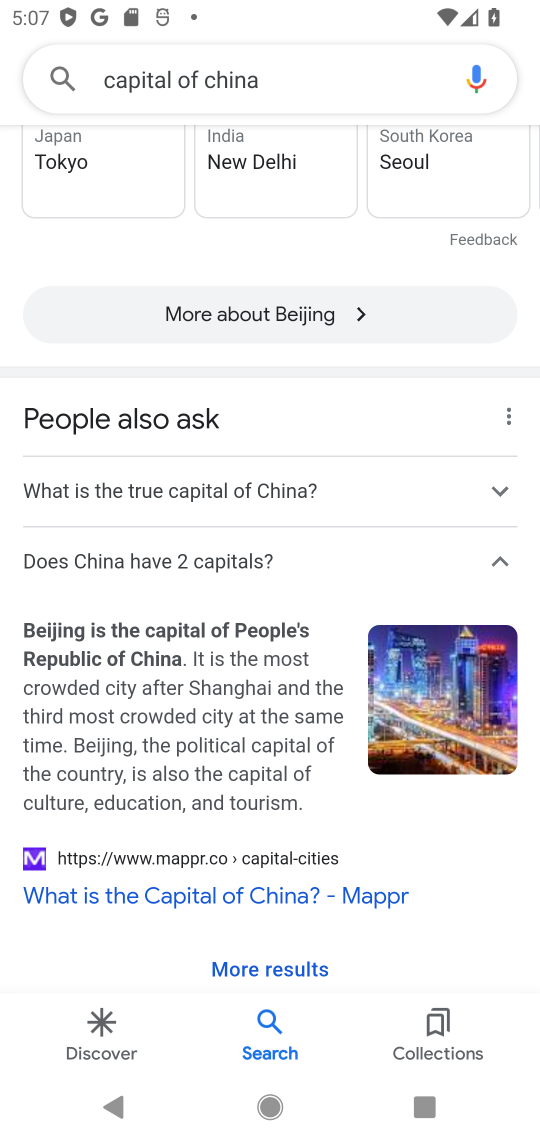
Step 47: click (501, 562)
Your task to perform on an android device: What is the capital of China? Image 48: 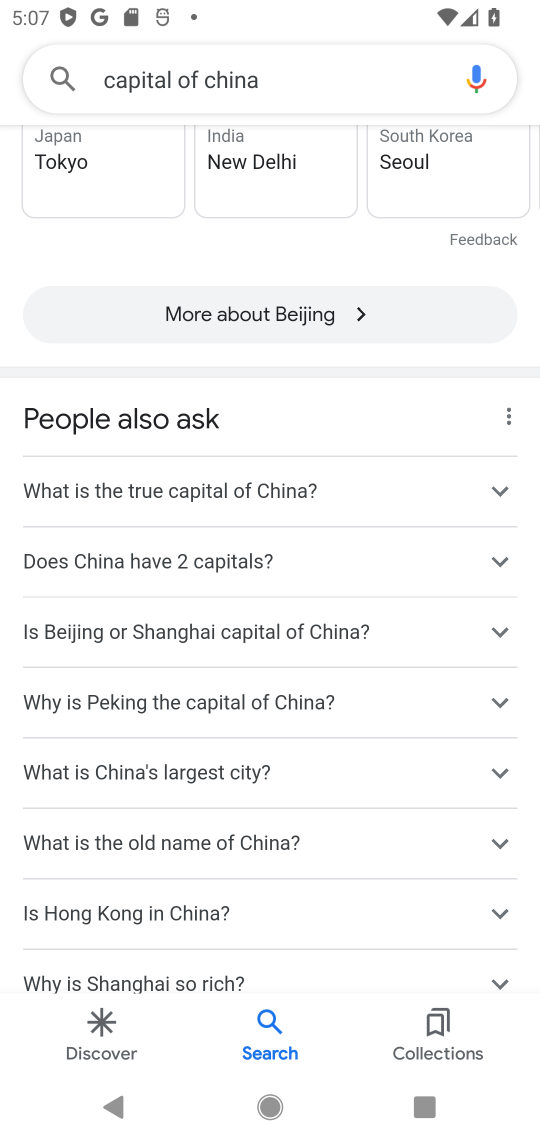
Step 48: click (501, 562)
Your task to perform on an android device: What is the capital of China? Image 49: 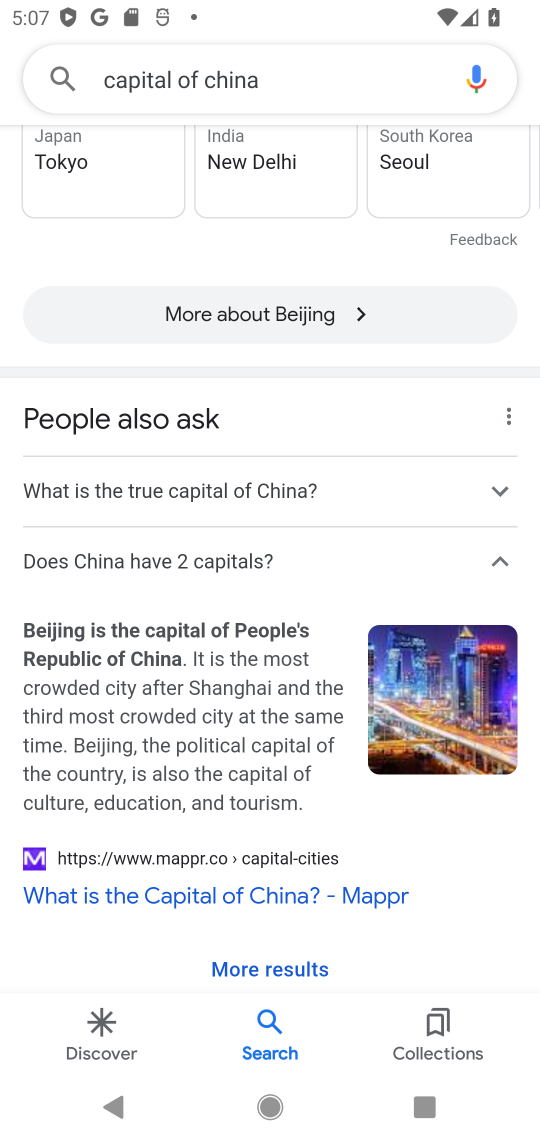
Step 49: click (501, 562)
Your task to perform on an android device: What is the capital of China? Image 50: 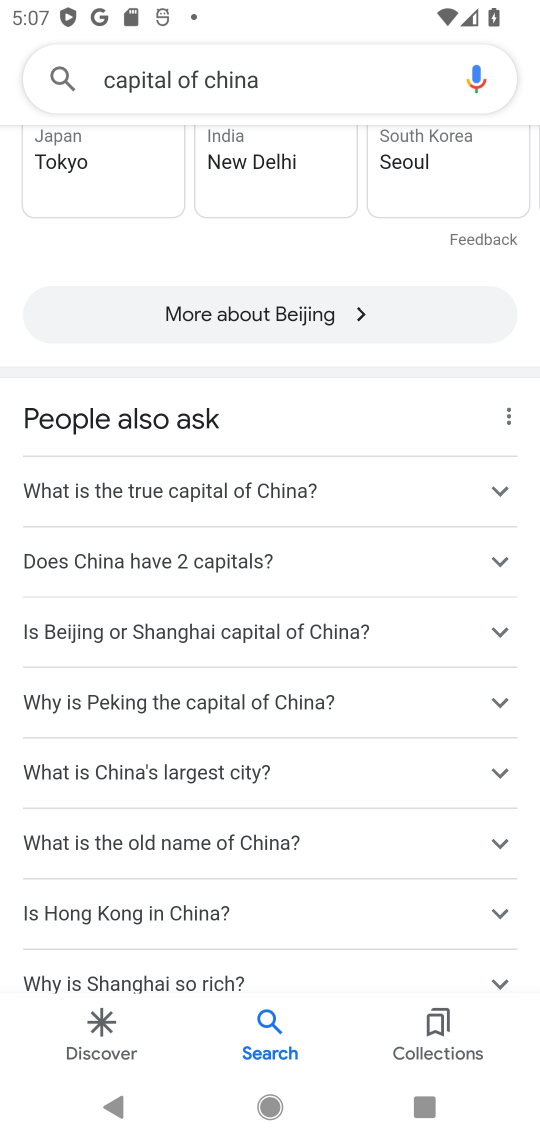
Step 50: click (501, 562)
Your task to perform on an android device: What is the capital of China? Image 51: 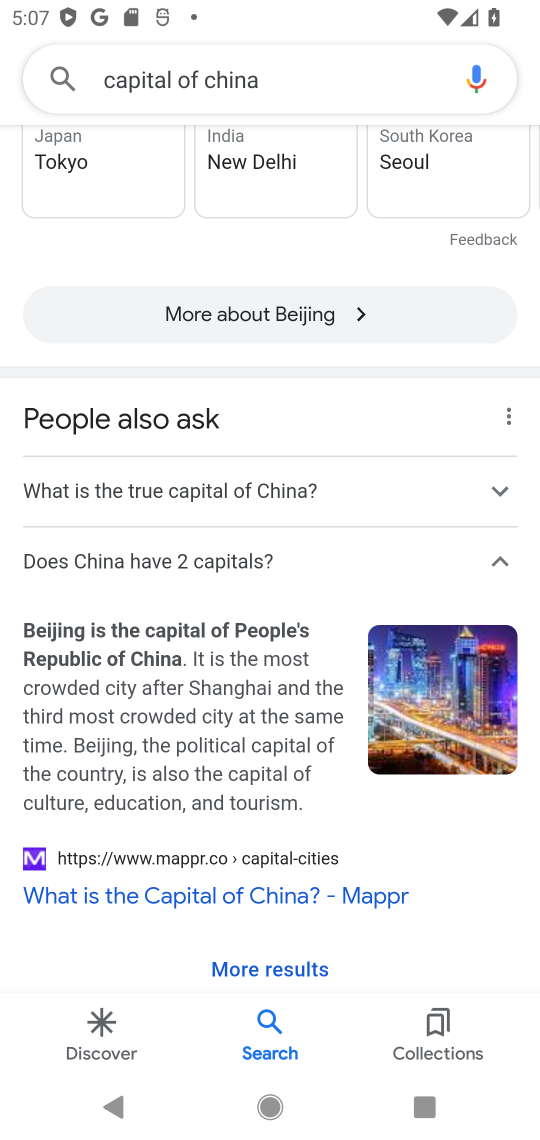
Step 51: click (501, 562)
Your task to perform on an android device: What is the capital of China? Image 52: 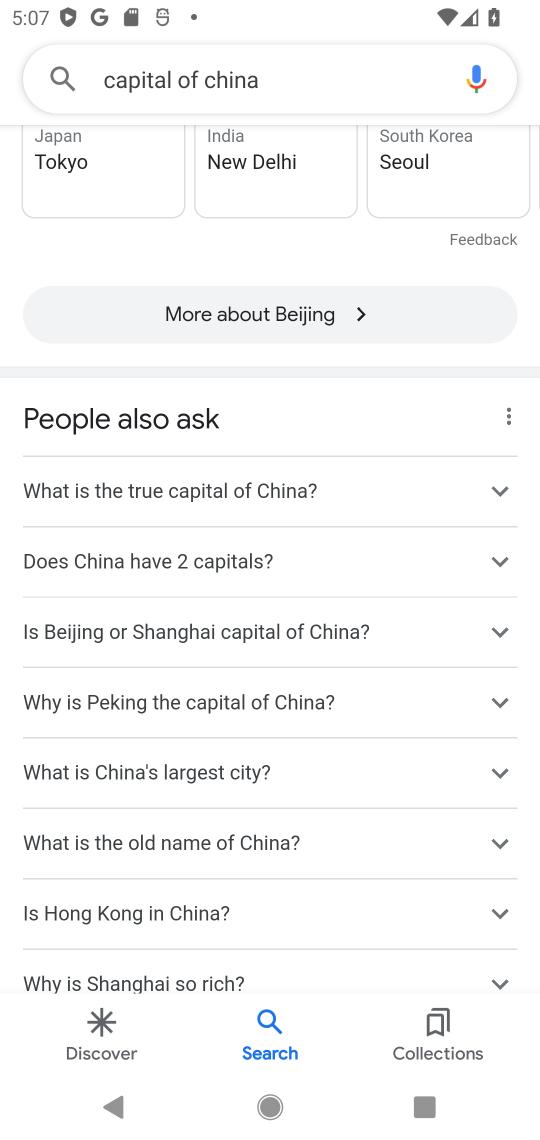
Step 52: click (501, 562)
Your task to perform on an android device: What is the capital of China? Image 53: 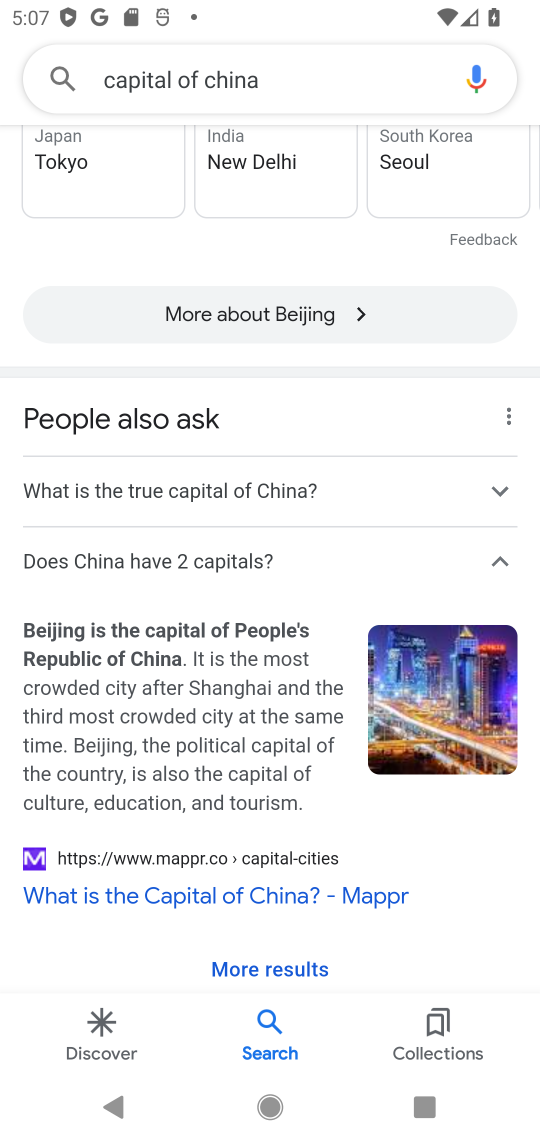
Step 53: click (501, 562)
Your task to perform on an android device: What is the capital of China? Image 54: 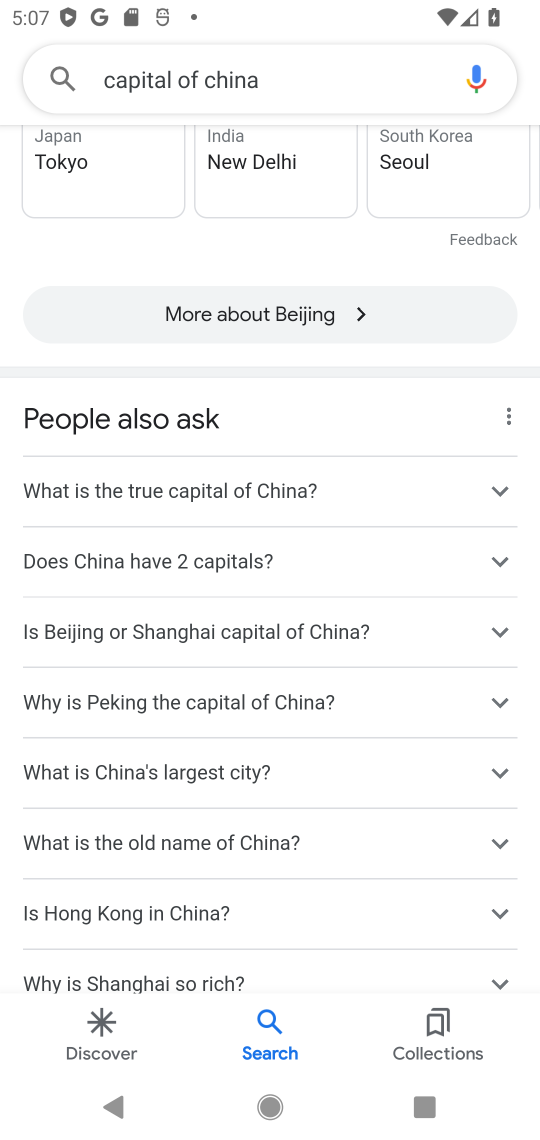
Step 54: click (501, 562)
Your task to perform on an android device: What is the capital of China? Image 55: 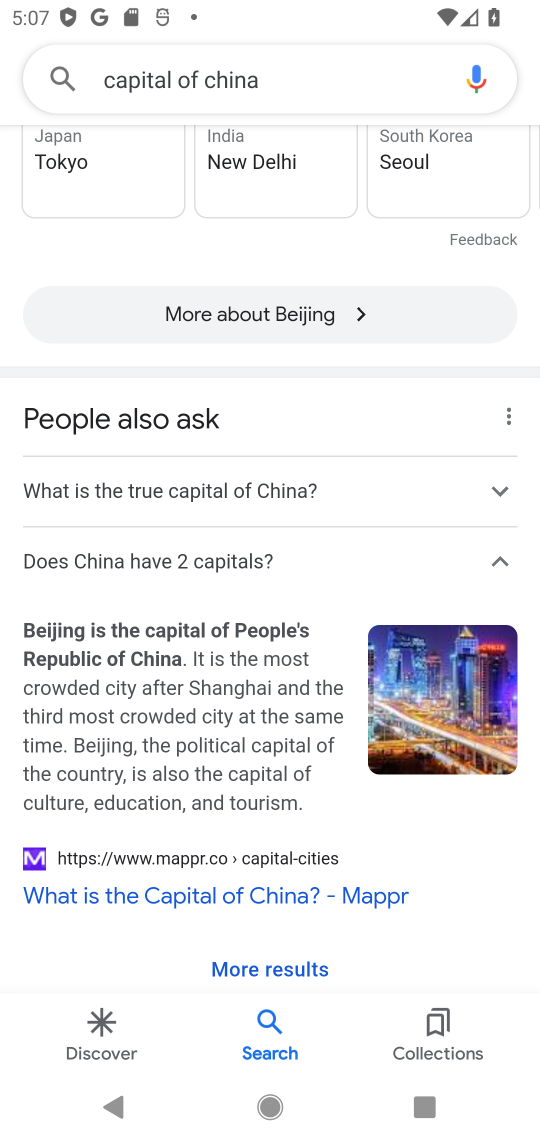
Step 55: click (501, 562)
Your task to perform on an android device: What is the capital of China? Image 56: 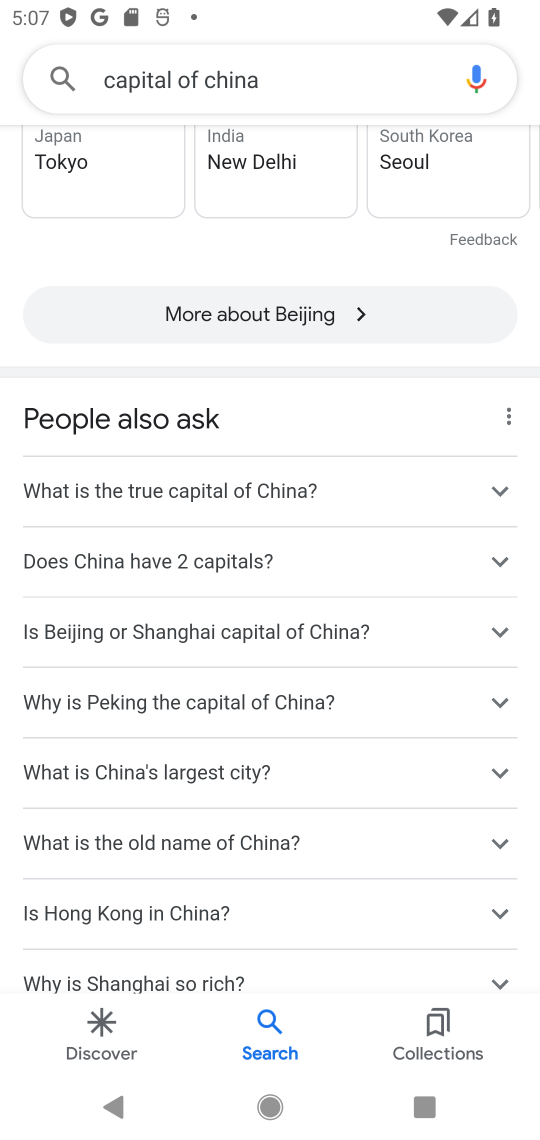
Step 56: click (501, 562)
Your task to perform on an android device: What is the capital of China? Image 57: 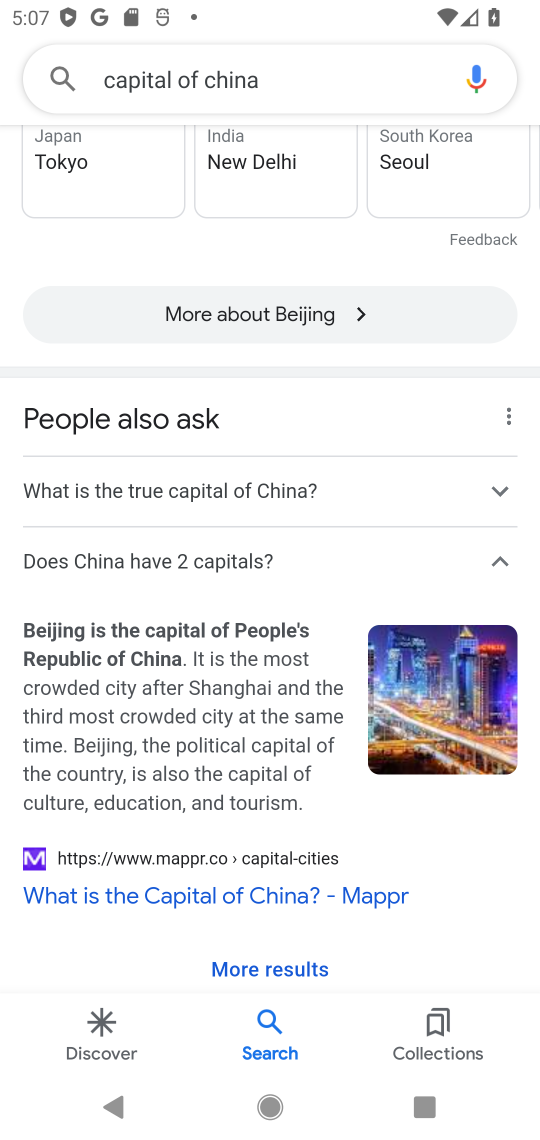
Step 57: click (501, 562)
Your task to perform on an android device: What is the capital of China? Image 58: 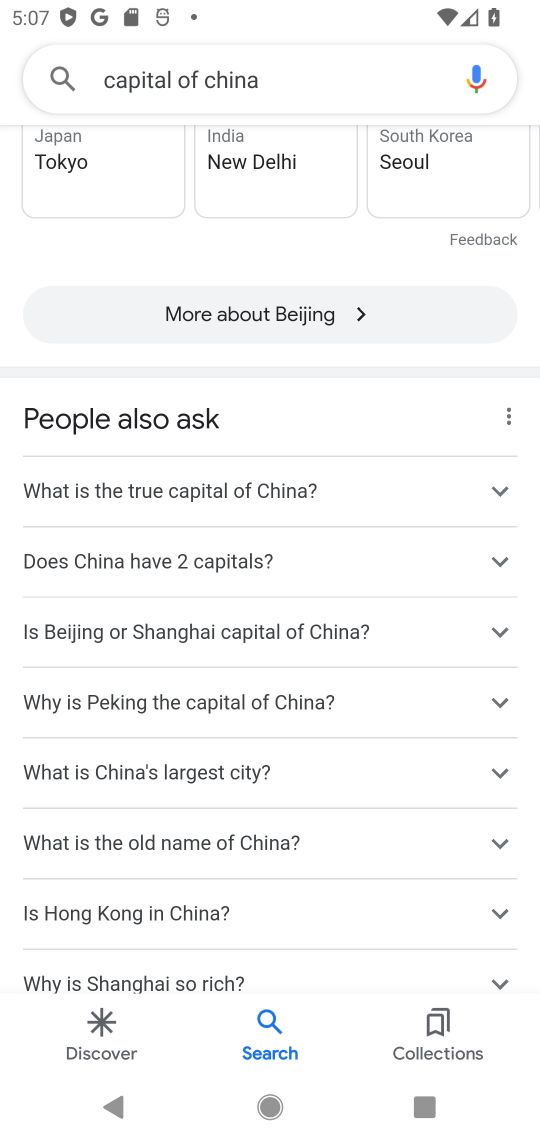
Step 58: click (501, 562)
Your task to perform on an android device: What is the capital of China? Image 59: 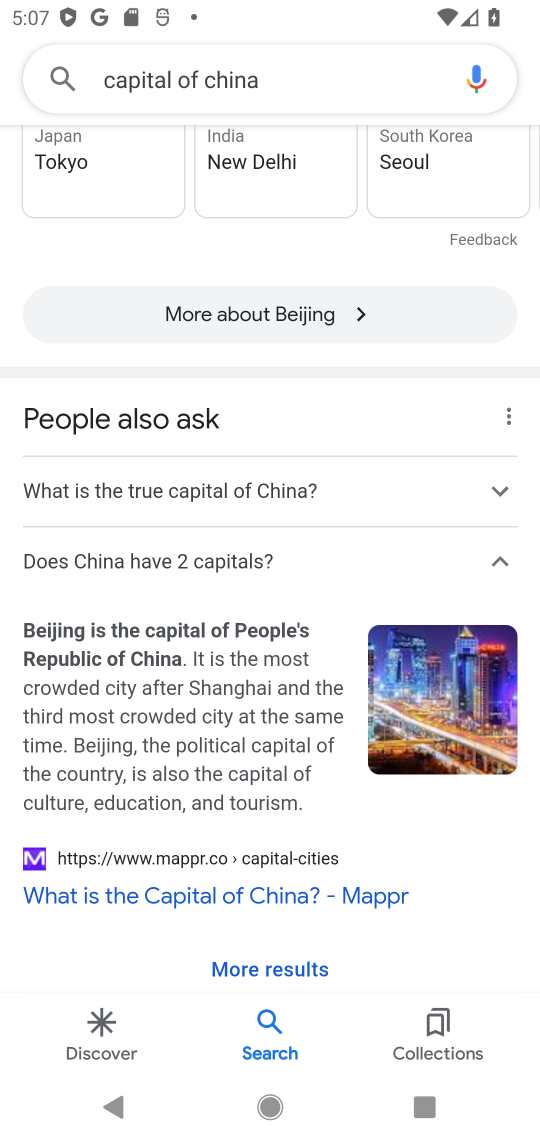
Step 59: click (501, 562)
Your task to perform on an android device: What is the capital of China? Image 60: 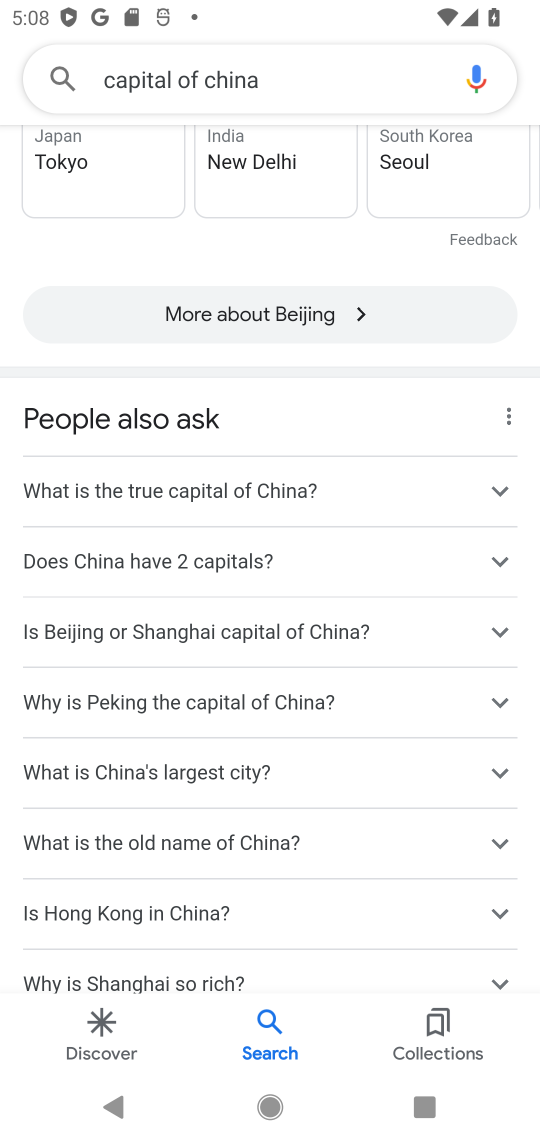
Step 60: click (503, 562)
Your task to perform on an android device: What is the capital of China? Image 61: 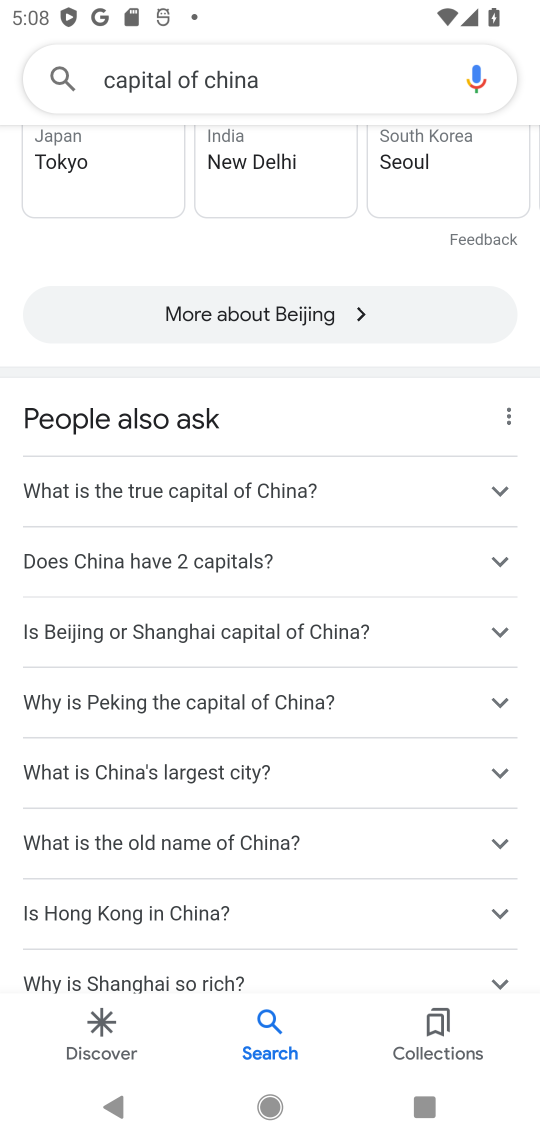
Step 61: click (503, 562)
Your task to perform on an android device: What is the capital of China? Image 62: 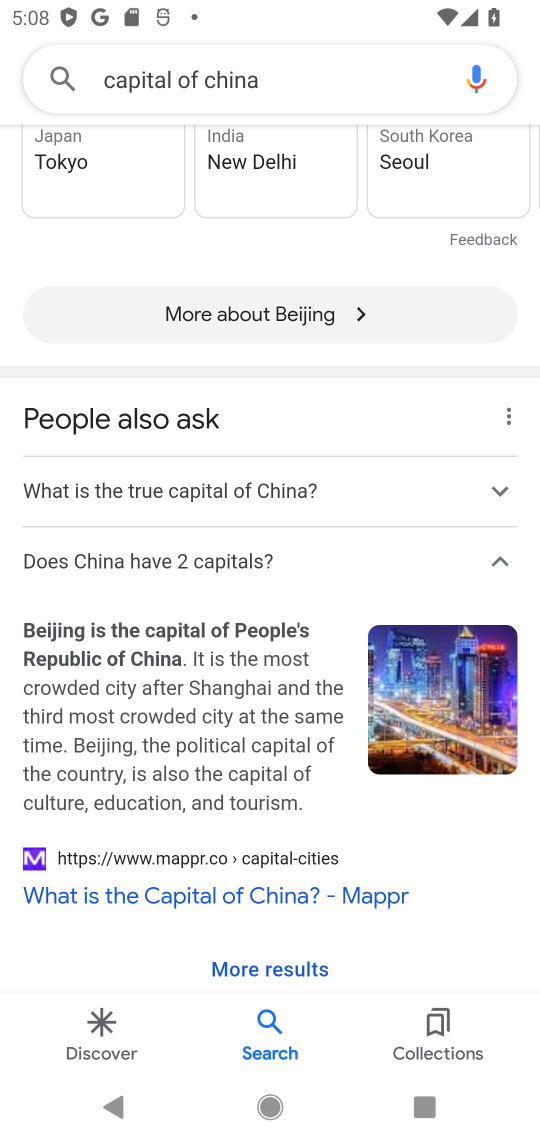
Step 62: click (503, 562)
Your task to perform on an android device: What is the capital of China? Image 63: 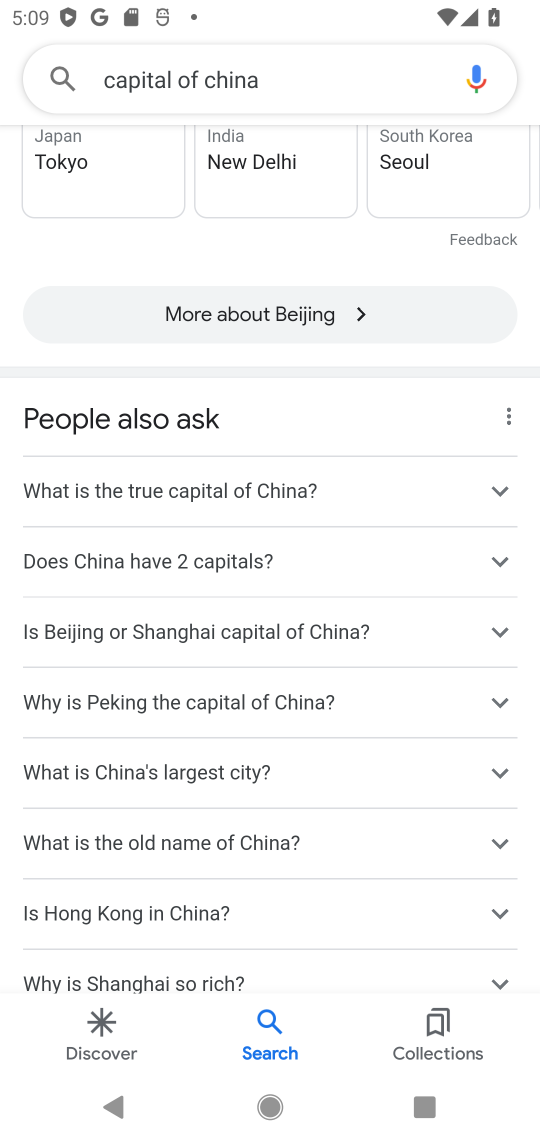
Step 63: task complete